Your task to perform on an android device: open app "Yahoo Mail" Image 0: 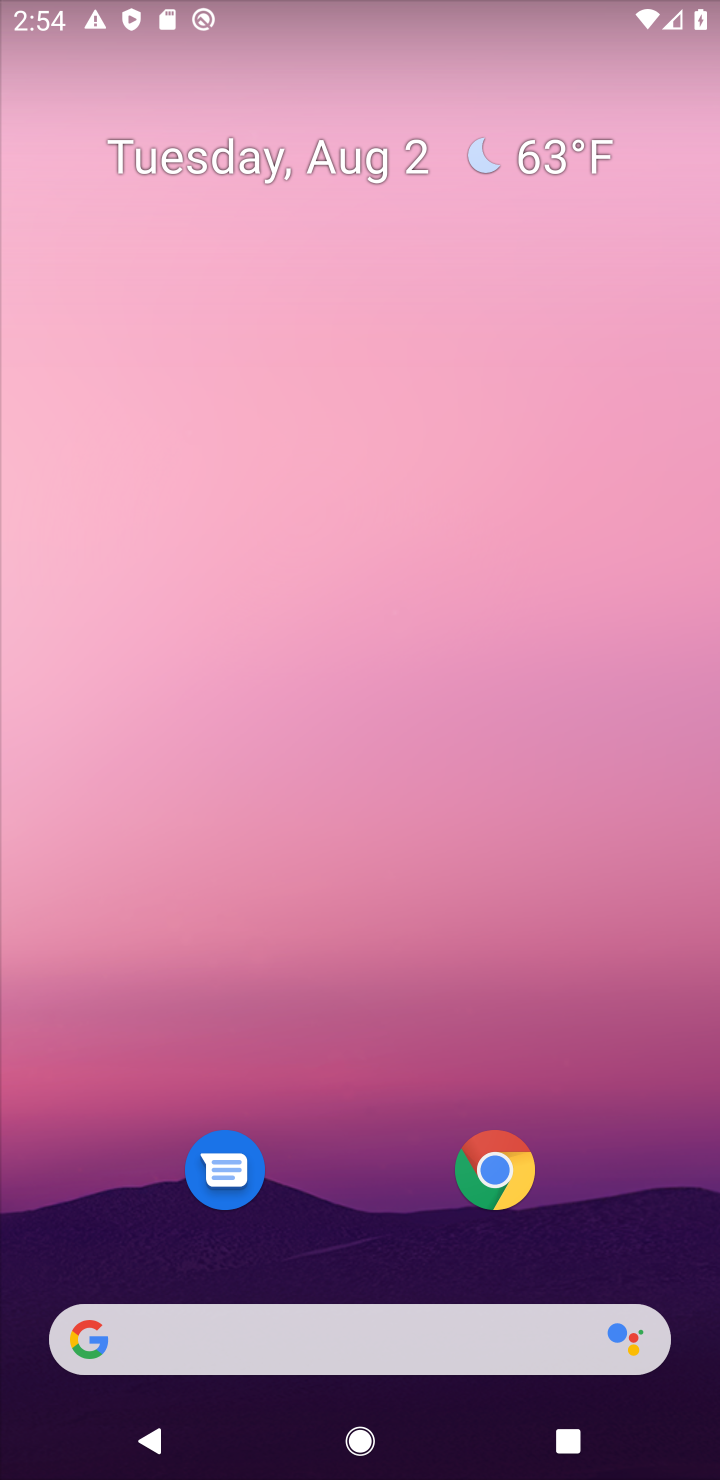
Step 0: drag from (453, 1141) to (311, 537)
Your task to perform on an android device: open app "Yahoo Mail" Image 1: 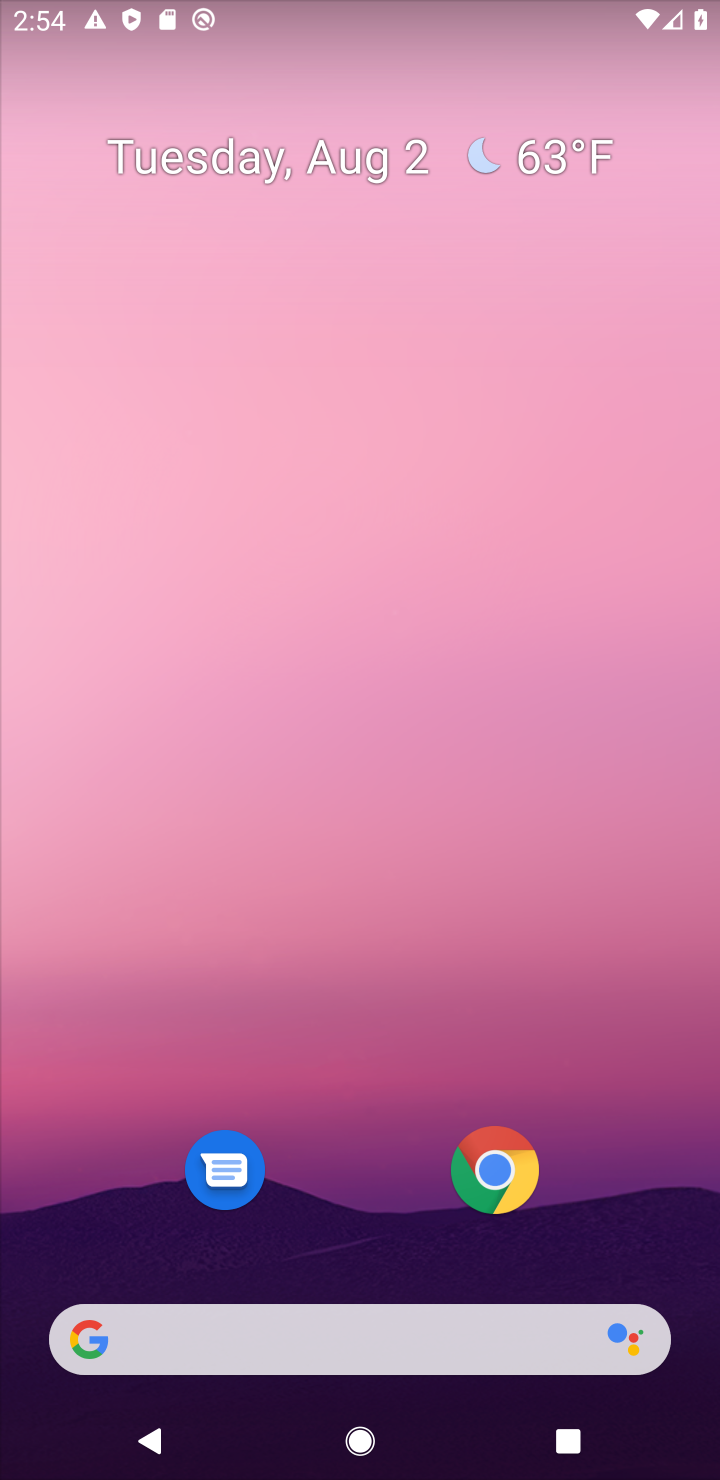
Step 1: click (321, 574)
Your task to perform on an android device: open app "Yahoo Mail" Image 2: 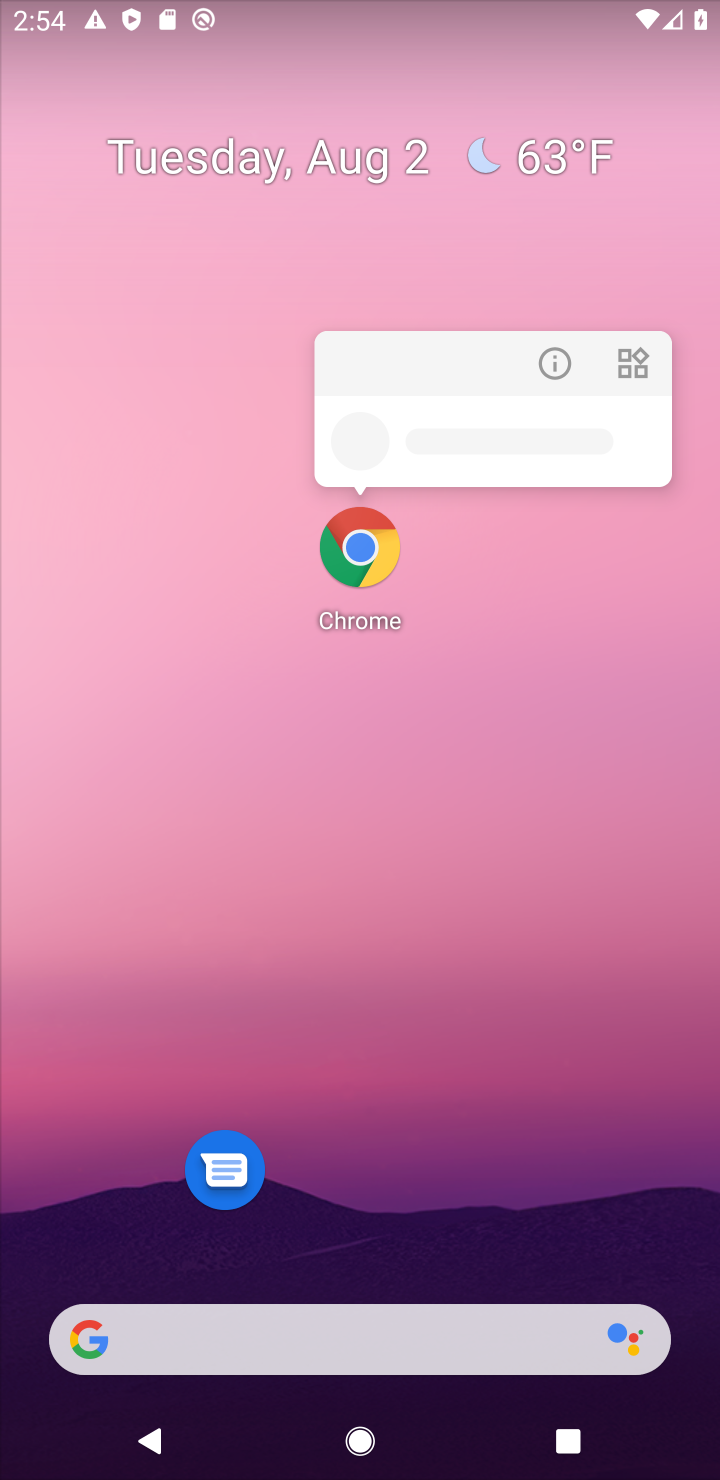
Step 2: click (283, 554)
Your task to perform on an android device: open app "Yahoo Mail" Image 3: 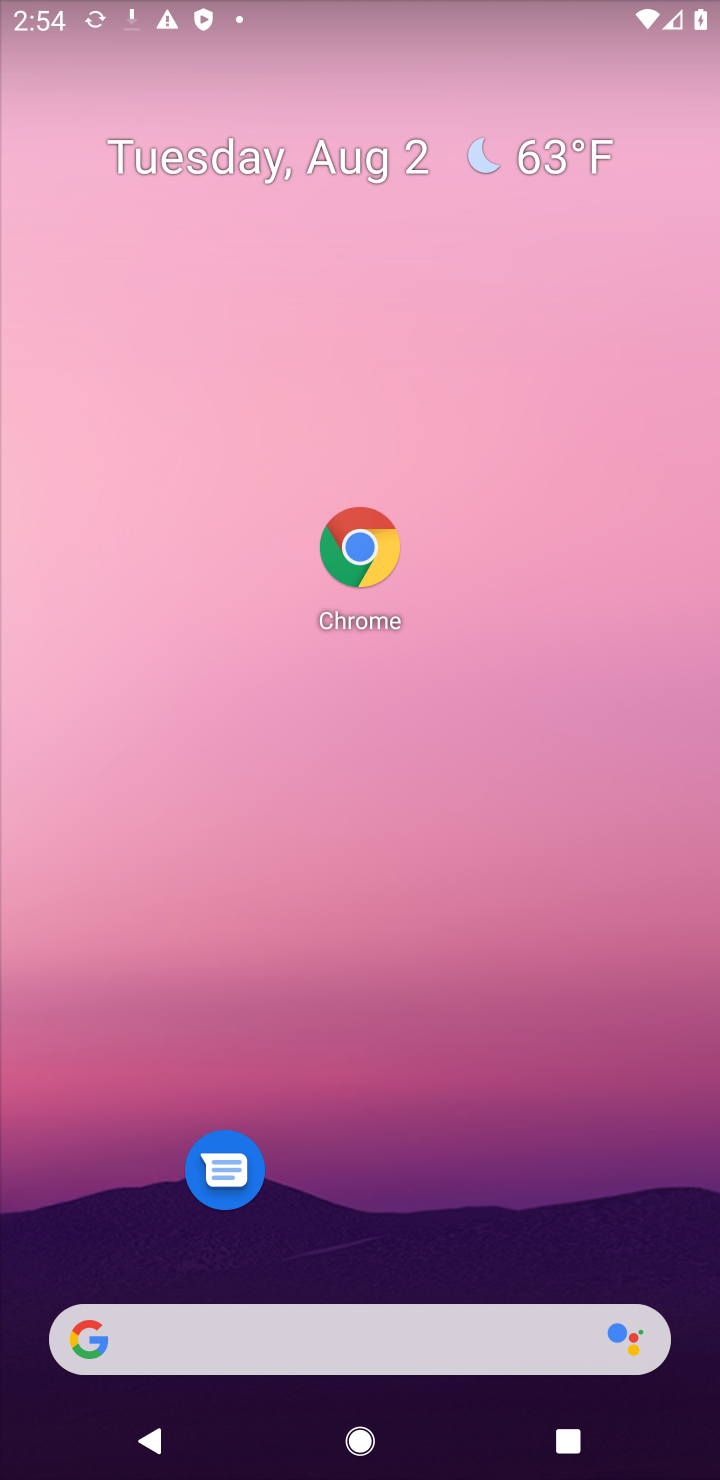
Step 3: click (407, 381)
Your task to perform on an android device: open app "Yahoo Mail" Image 4: 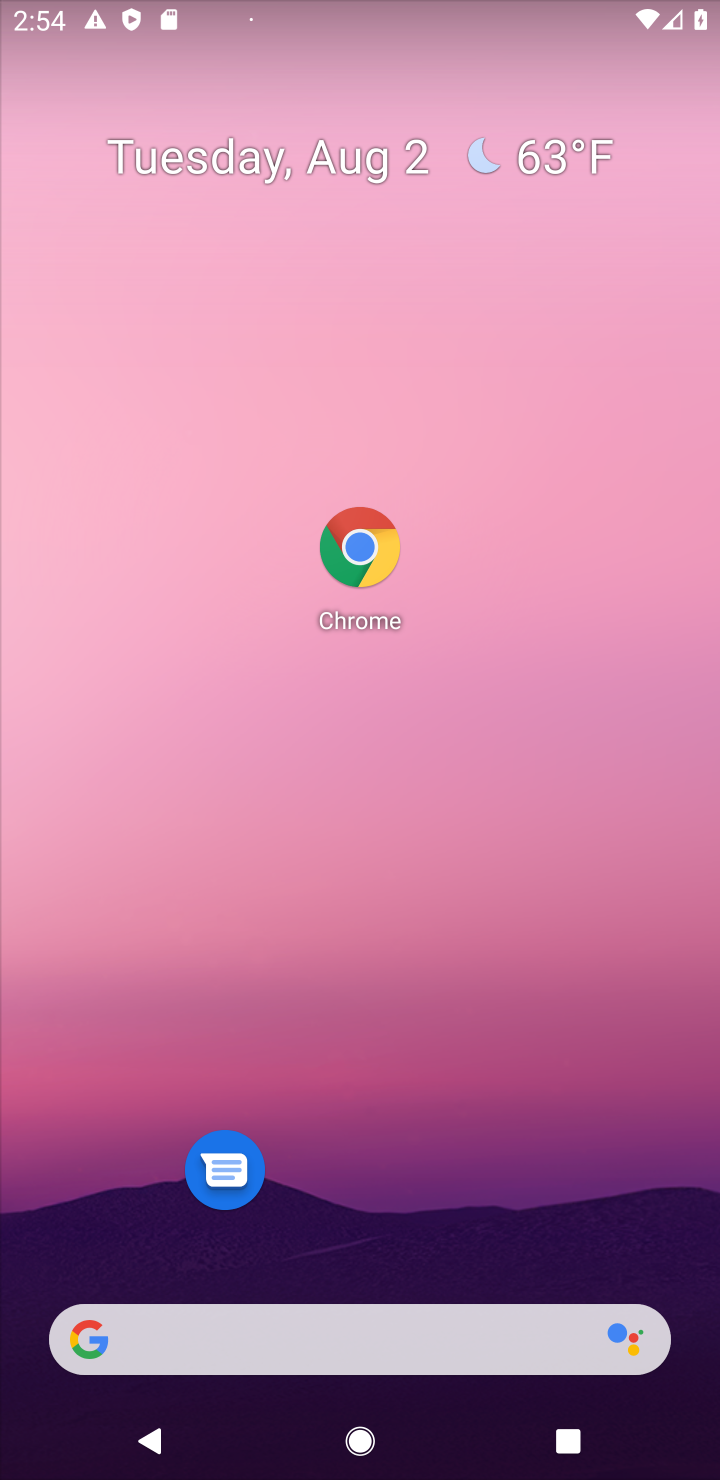
Step 4: drag from (267, 852) to (359, 331)
Your task to perform on an android device: open app "Yahoo Mail" Image 5: 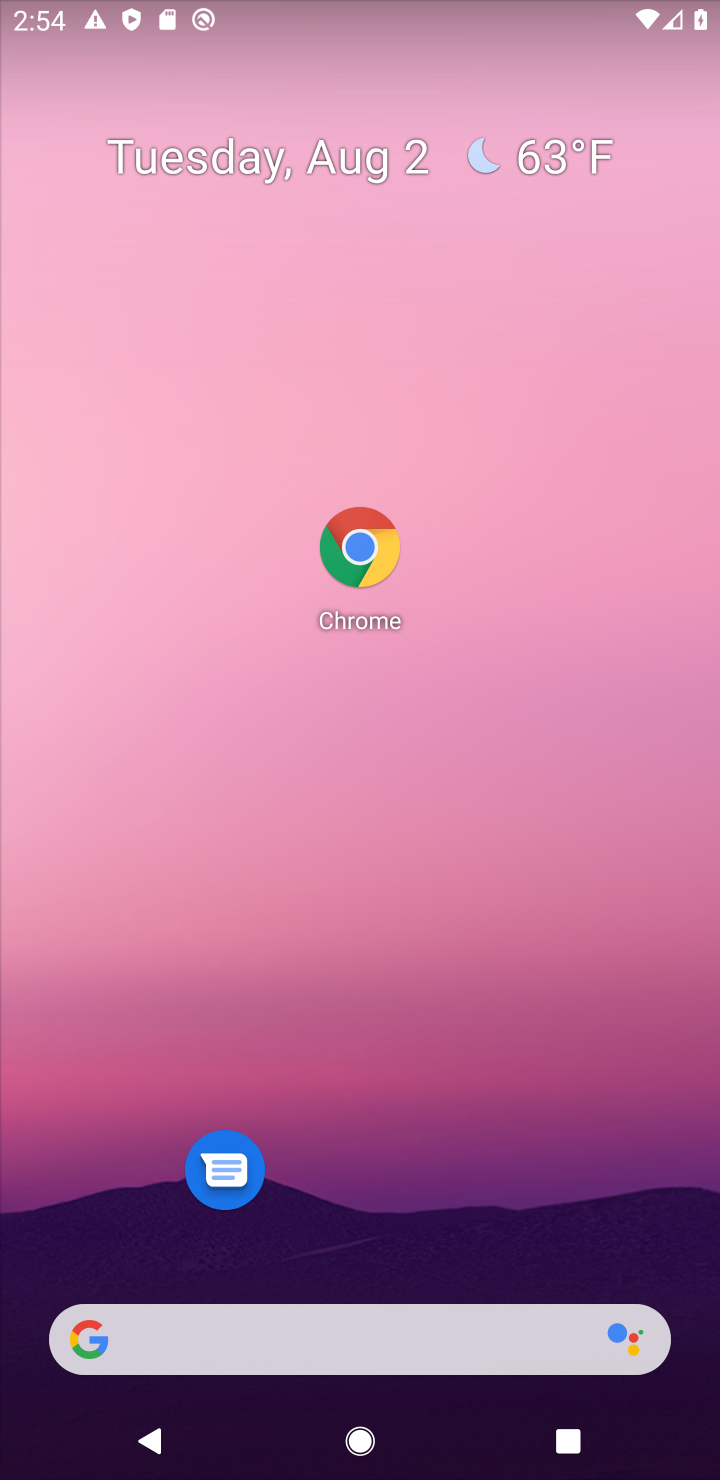
Step 5: drag from (338, 297) to (342, 507)
Your task to perform on an android device: open app "Yahoo Mail" Image 6: 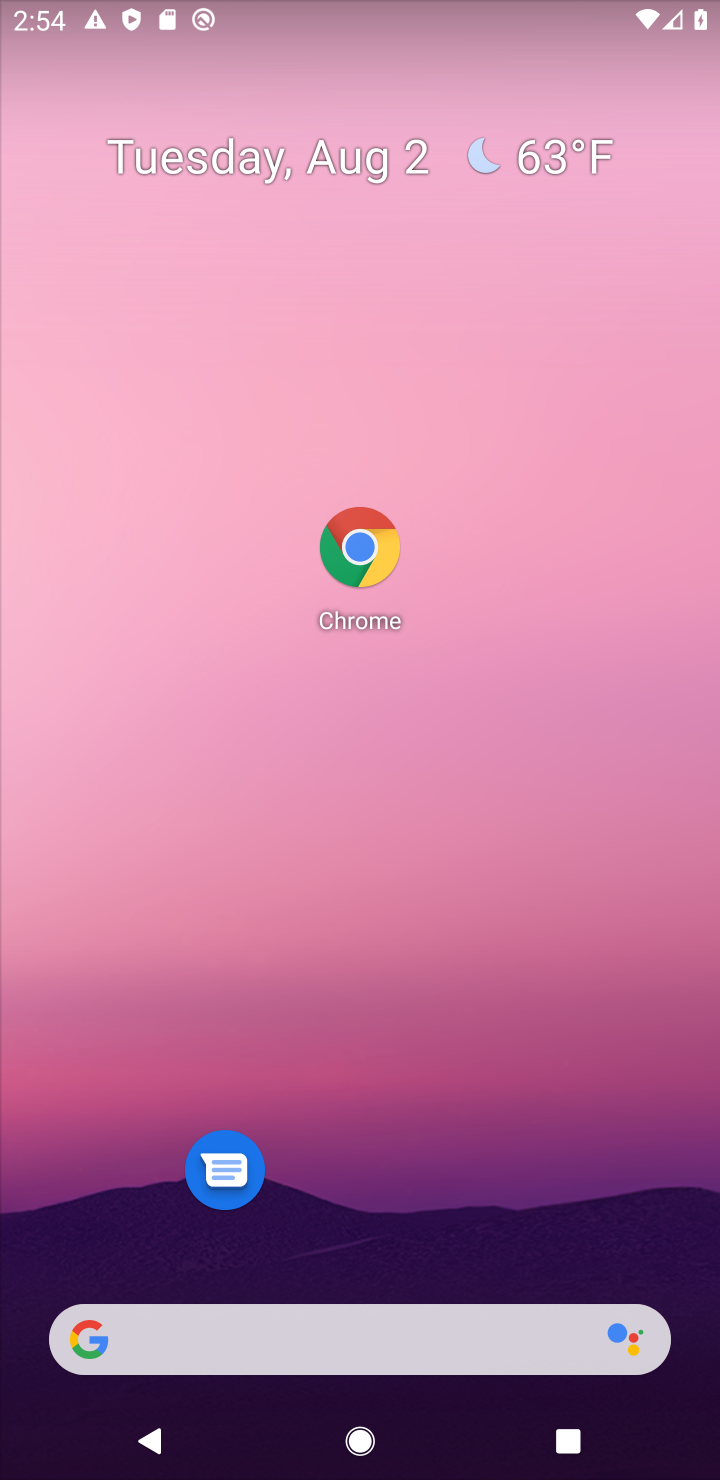
Step 6: drag from (274, 347) to (262, 651)
Your task to perform on an android device: open app "Yahoo Mail" Image 7: 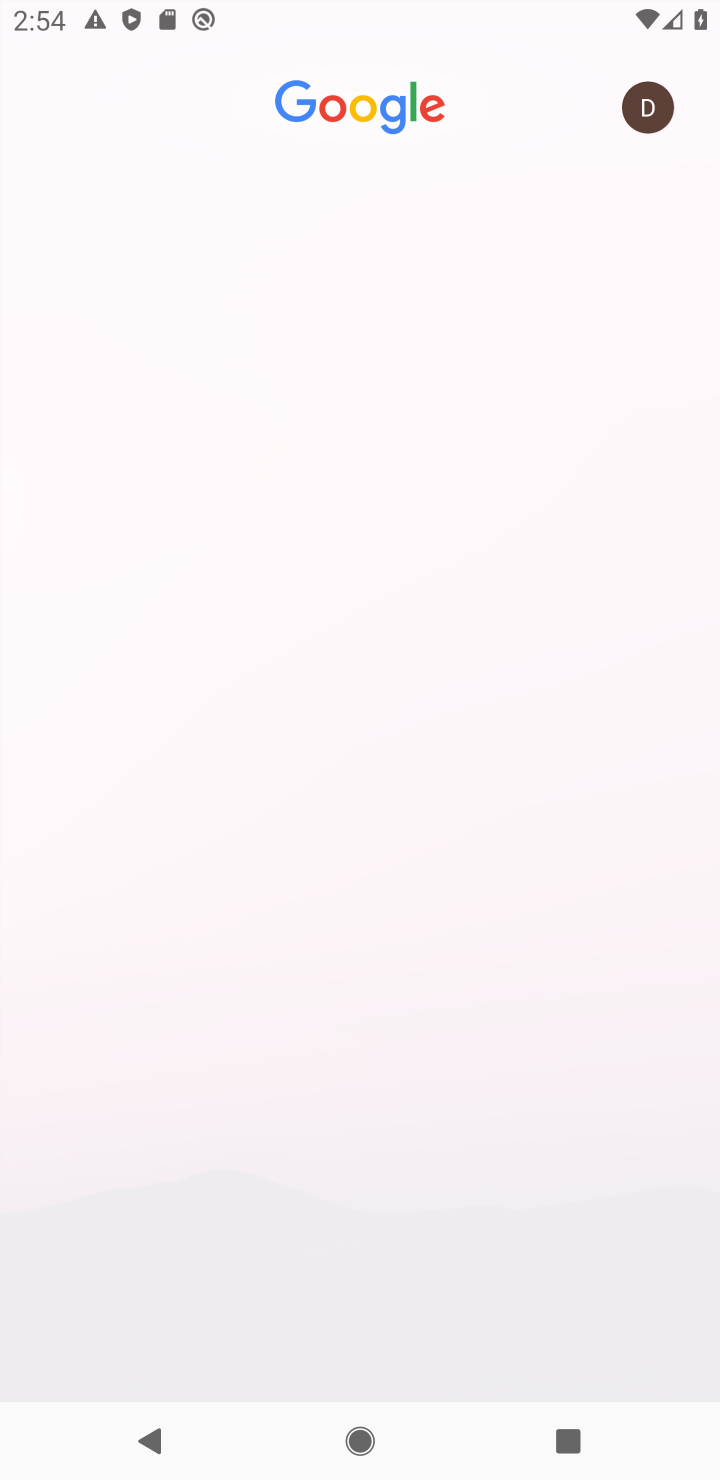
Step 7: click (281, 512)
Your task to perform on an android device: open app "Yahoo Mail" Image 8: 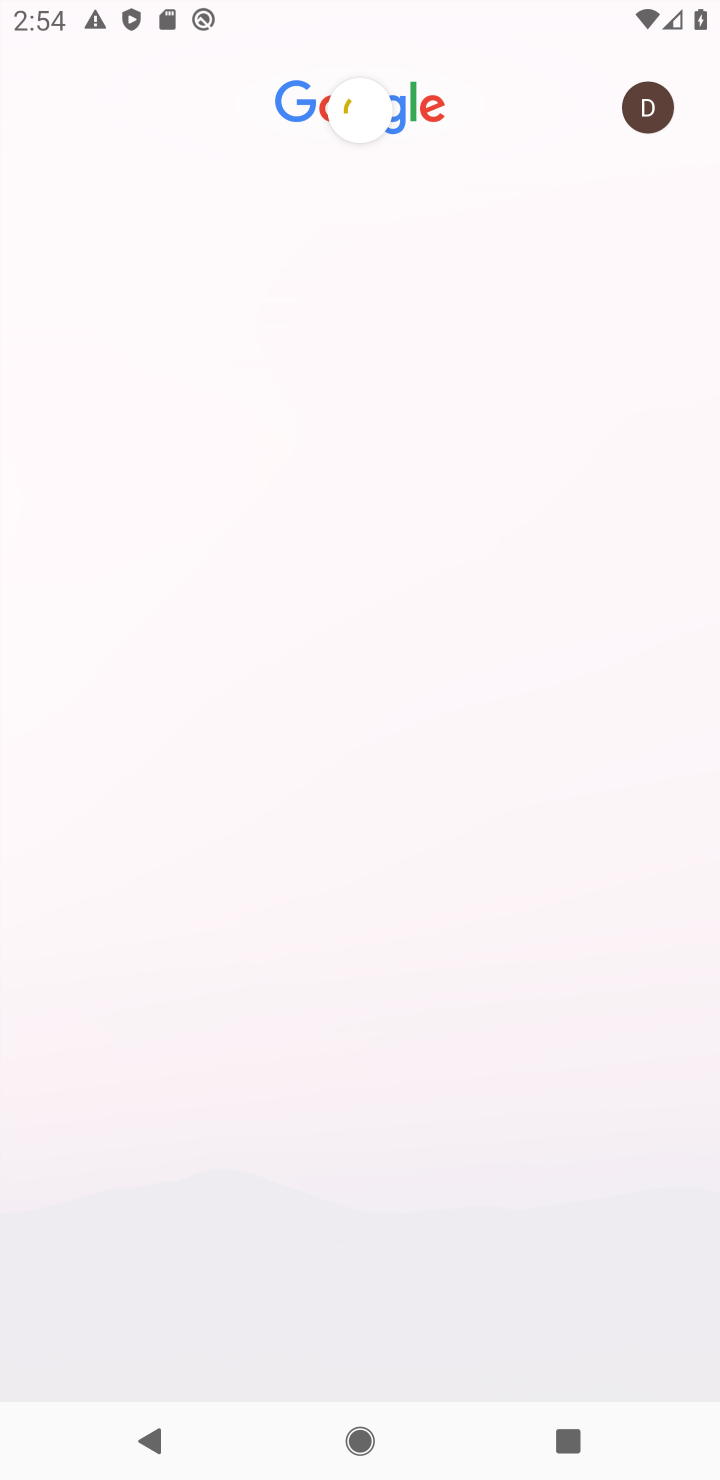
Step 8: press back button
Your task to perform on an android device: open app "Yahoo Mail" Image 9: 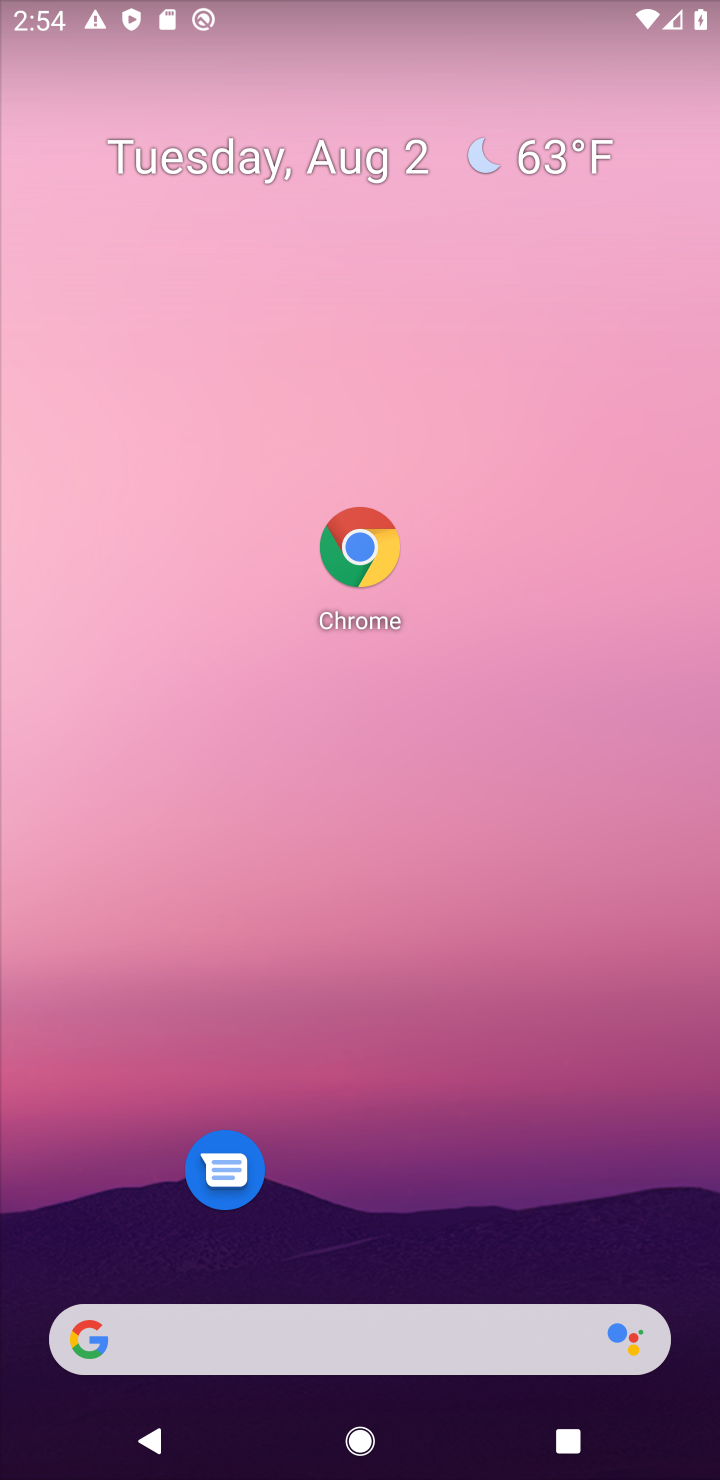
Step 9: drag from (287, 952) to (268, 387)
Your task to perform on an android device: open app "Yahoo Mail" Image 10: 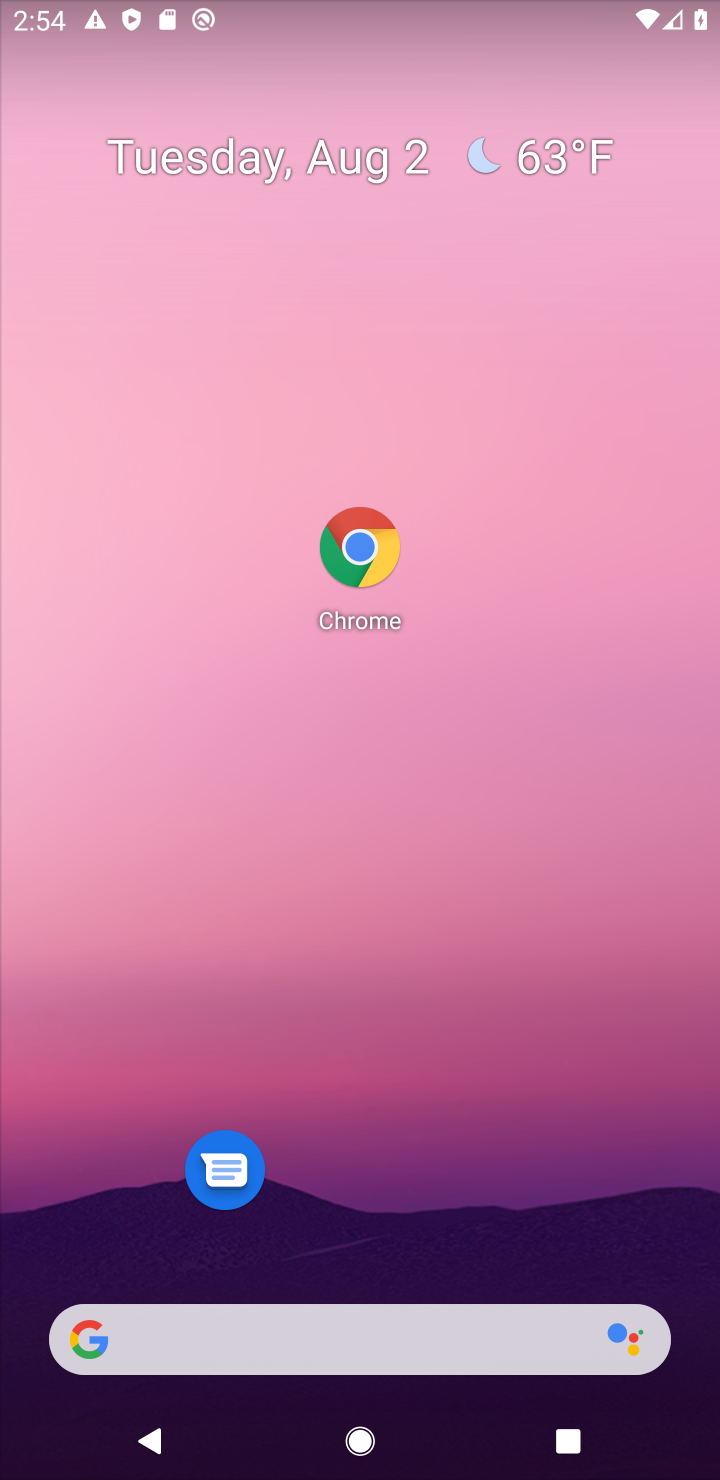
Step 10: drag from (317, 679) to (261, 474)
Your task to perform on an android device: open app "Yahoo Mail" Image 11: 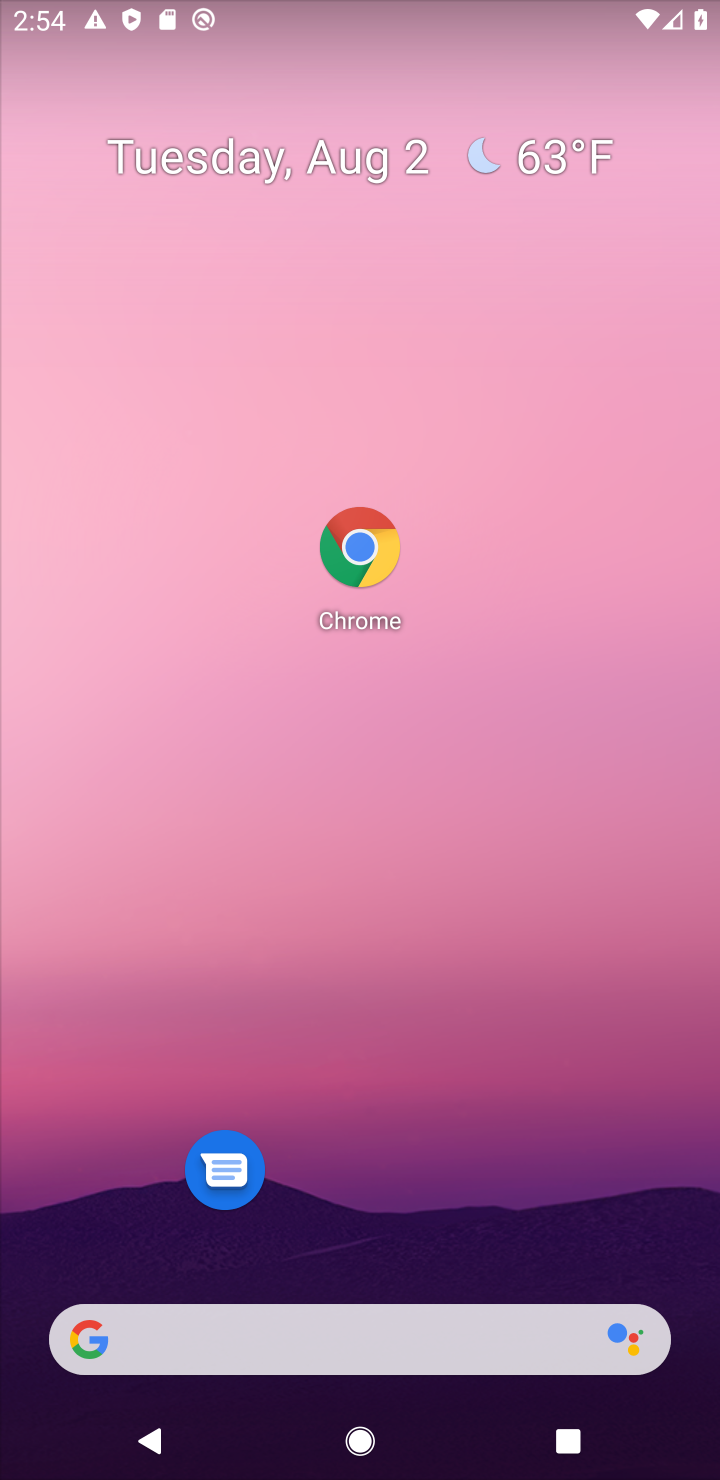
Step 11: drag from (420, 439) to (278, 285)
Your task to perform on an android device: open app "Yahoo Mail" Image 12: 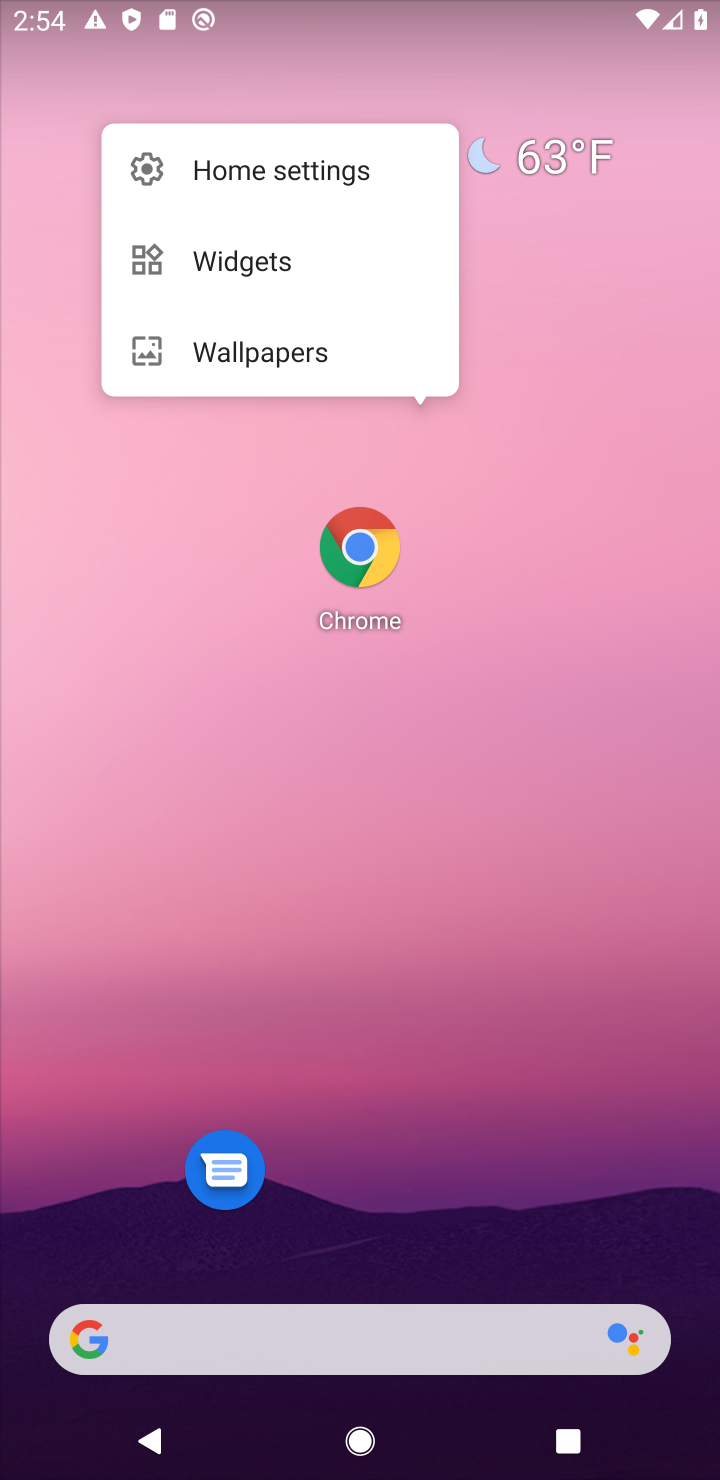
Step 12: drag from (451, 759) to (252, 220)
Your task to perform on an android device: open app "Yahoo Mail" Image 13: 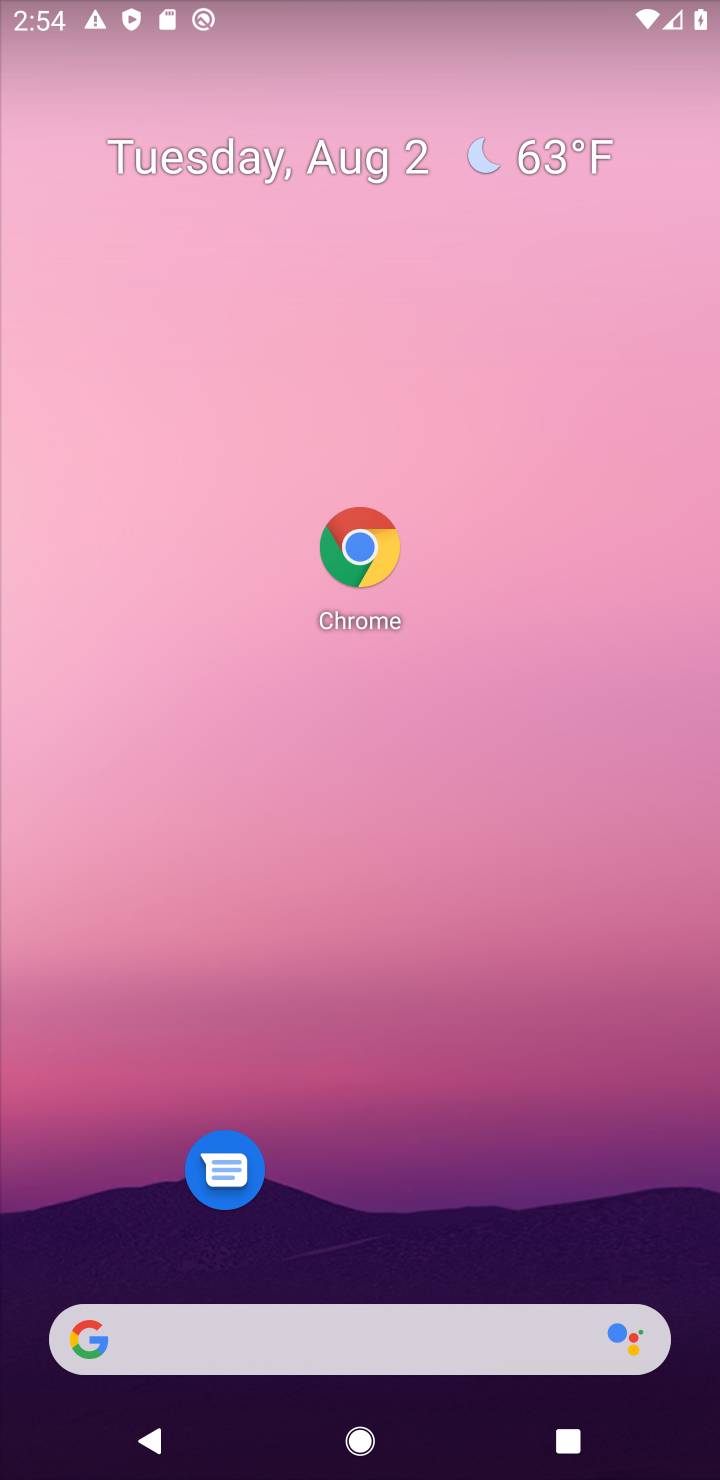
Step 13: drag from (468, 1366) to (204, 57)
Your task to perform on an android device: open app "Yahoo Mail" Image 14: 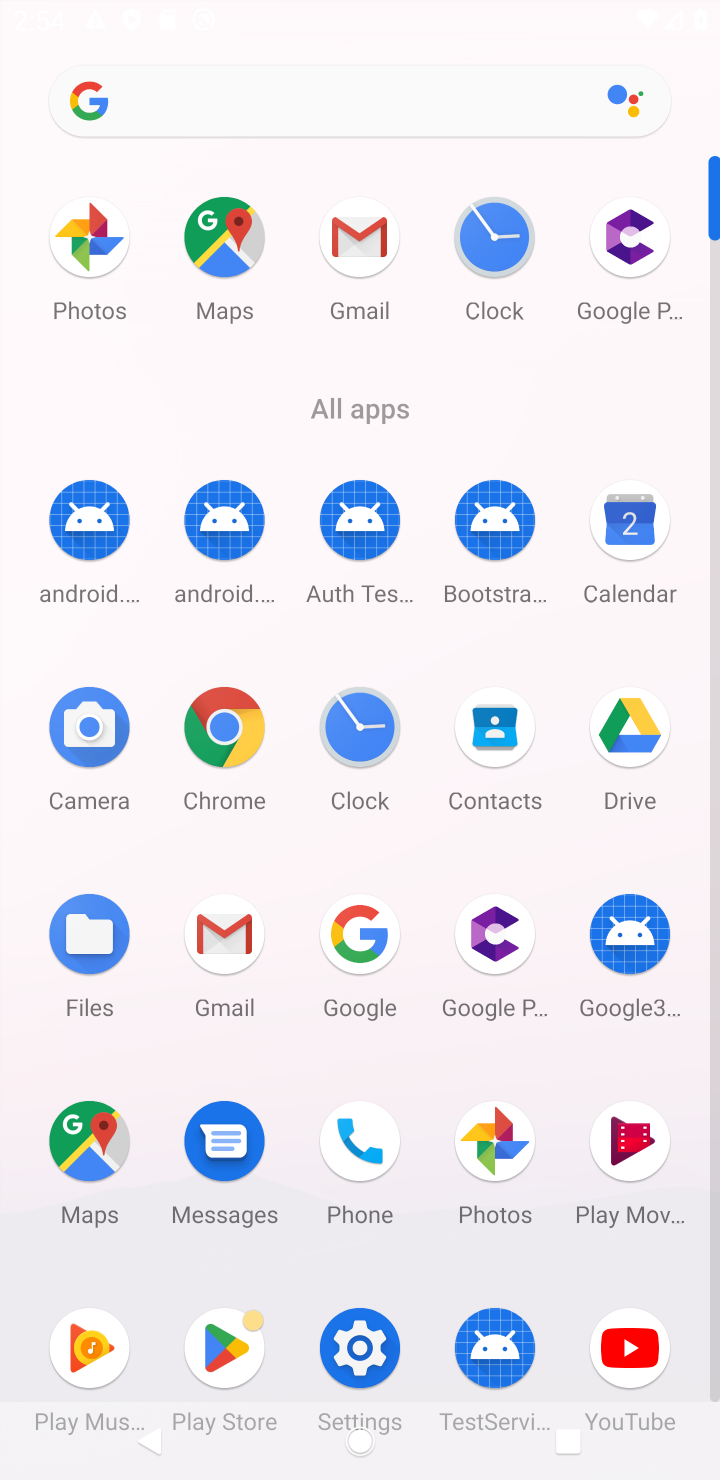
Step 14: drag from (40, 636) to (16, 29)
Your task to perform on an android device: open app "Yahoo Mail" Image 15: 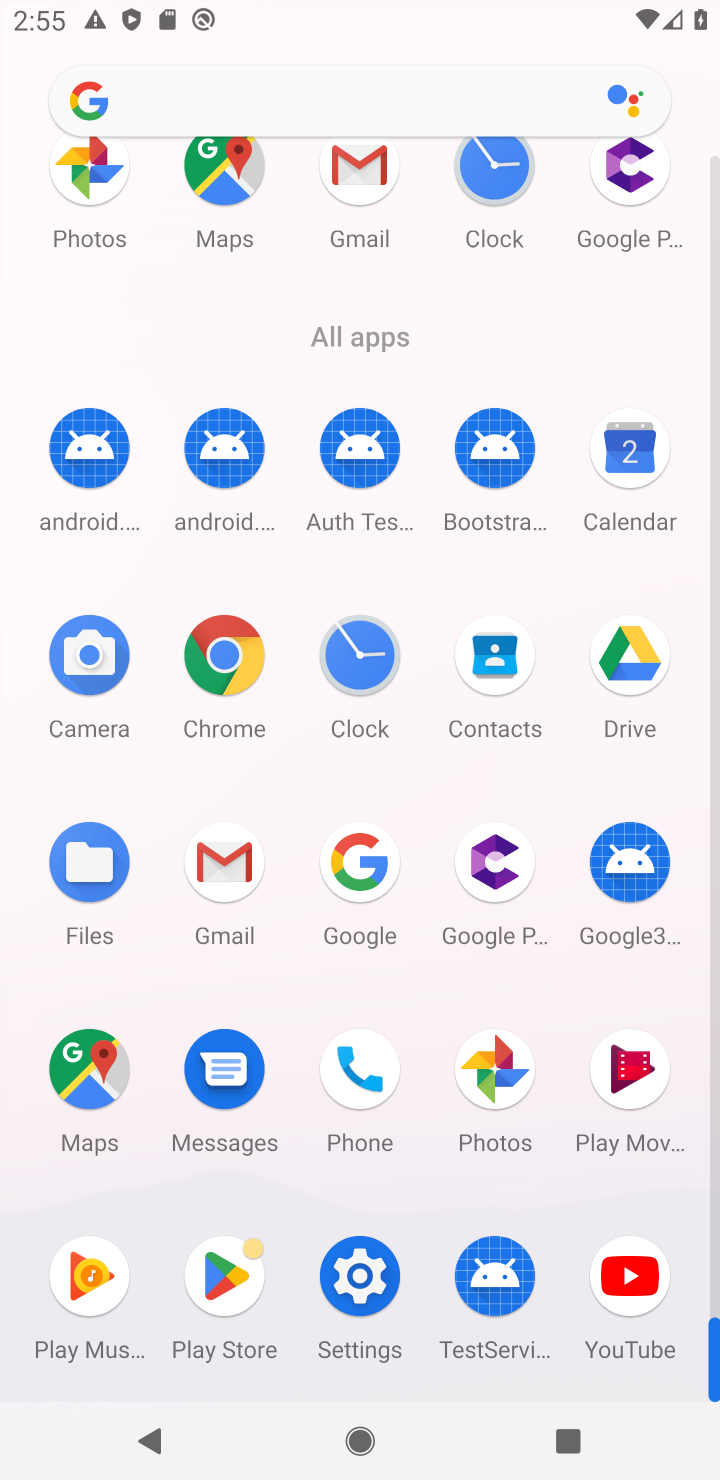
Step 15: click (223, 1280)
Your task to perform on an android device: open app "Yahoo Mail" Image 16: 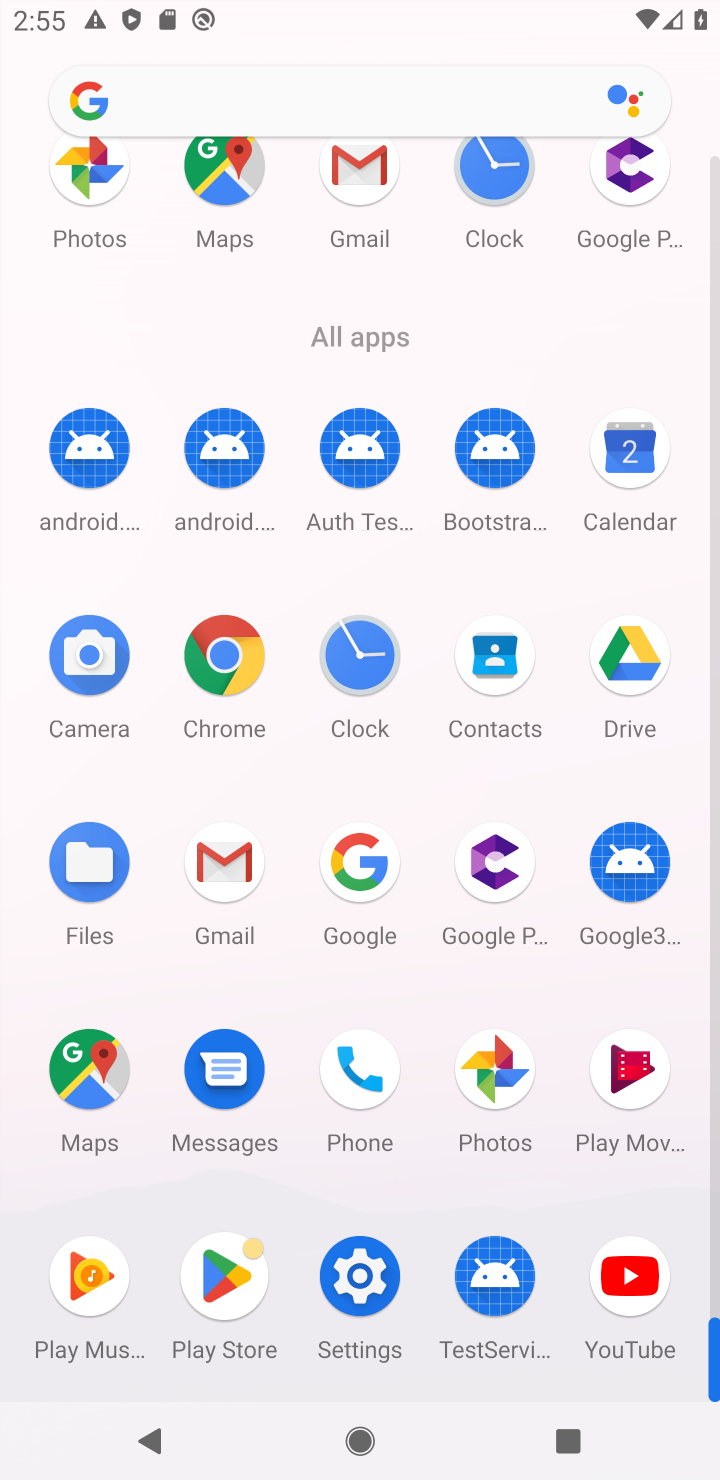
Step 16: click (243, 1284)
Your task to perform on an android device: open app "Yahoo Mail" Image 17: 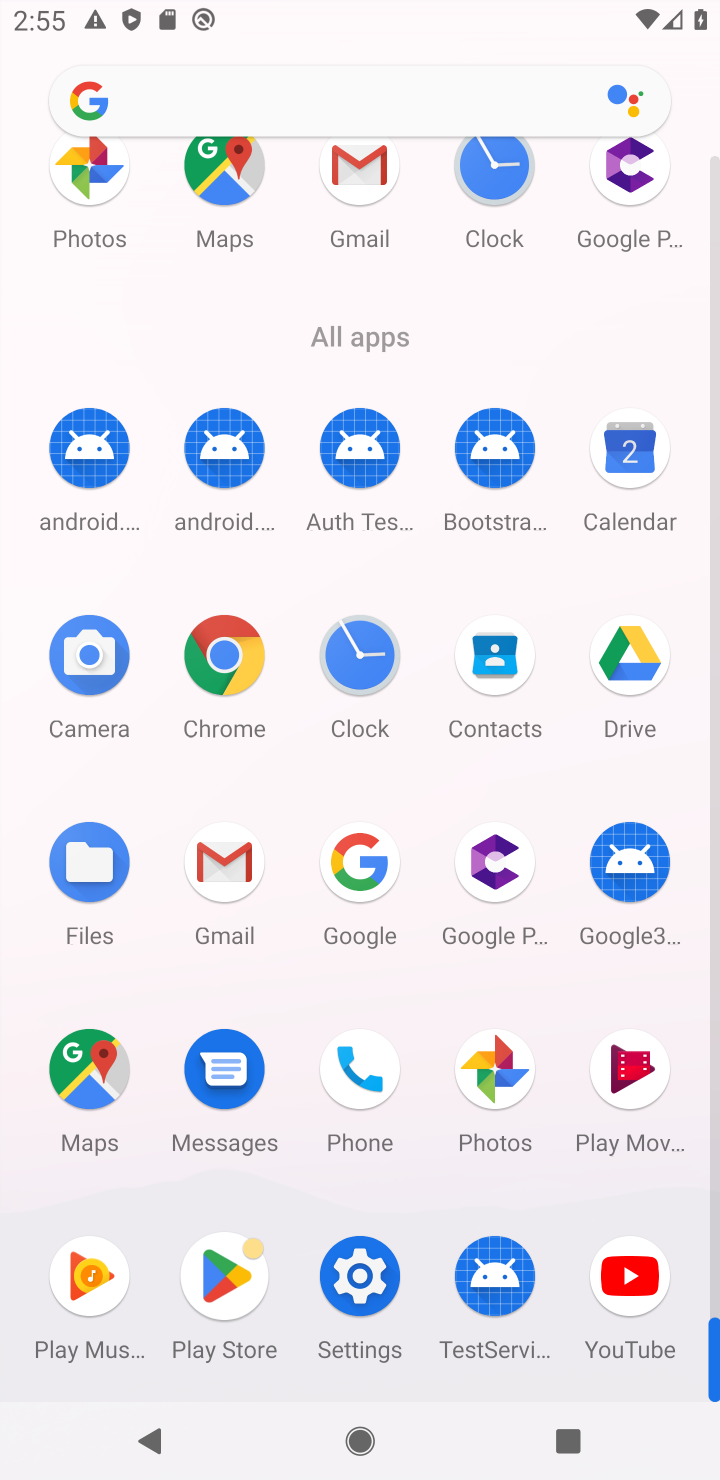
Step 17: click (241, 1297)
Your task to perform on an android device: open app "Yahoo Mail" Image 18: 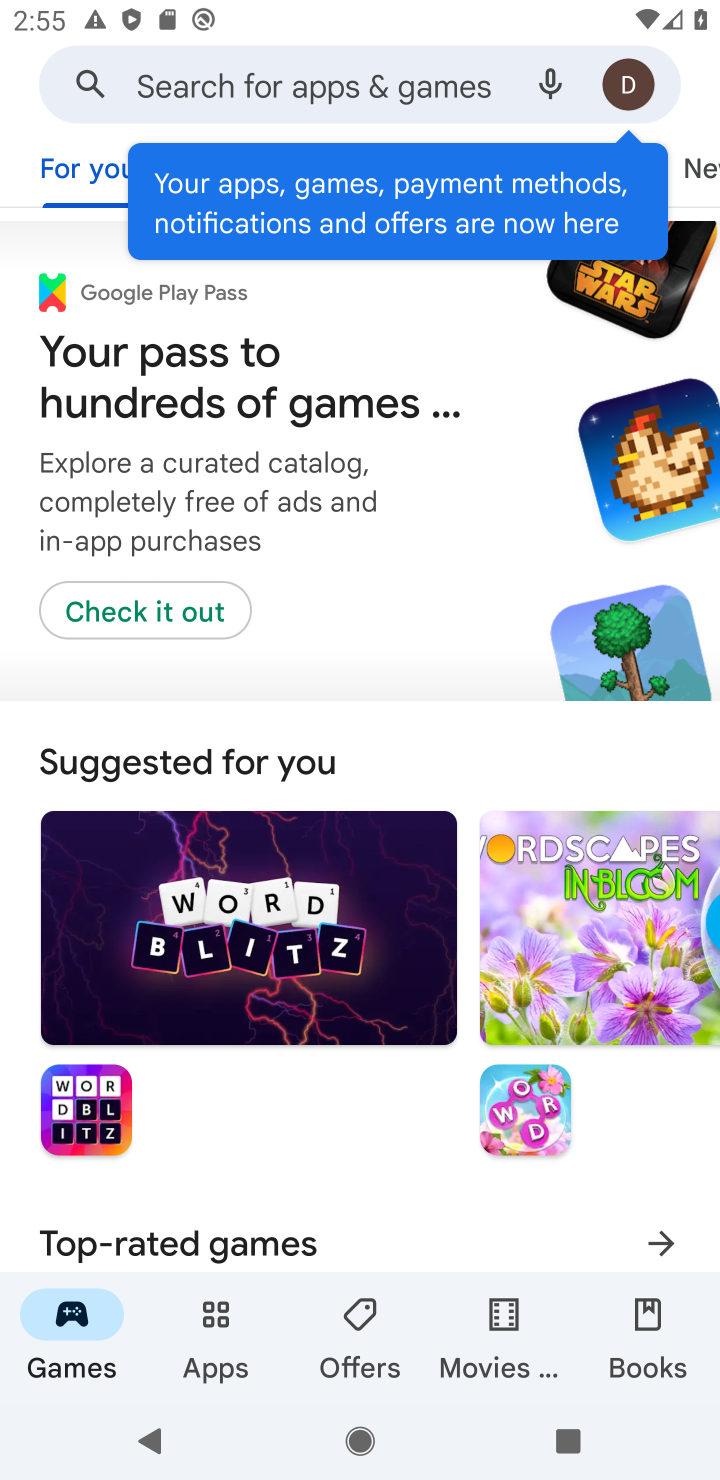
Step 18: click (214, 81)
Your task to perform on an android device: open app "Yahoo Mail" Image 19: 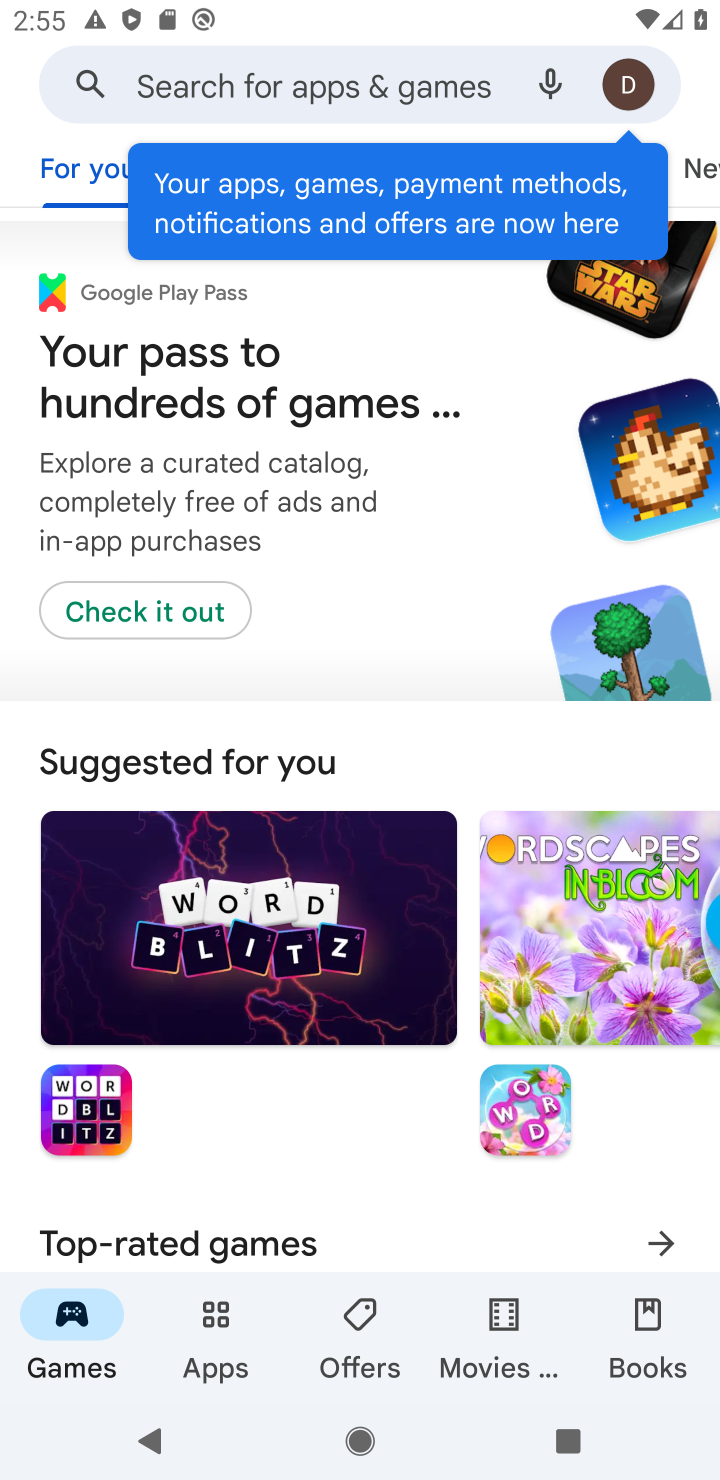
Step 19: click (224, 72)
Your task to perform on an android device: open app "Yahoo Mail" Image 20: 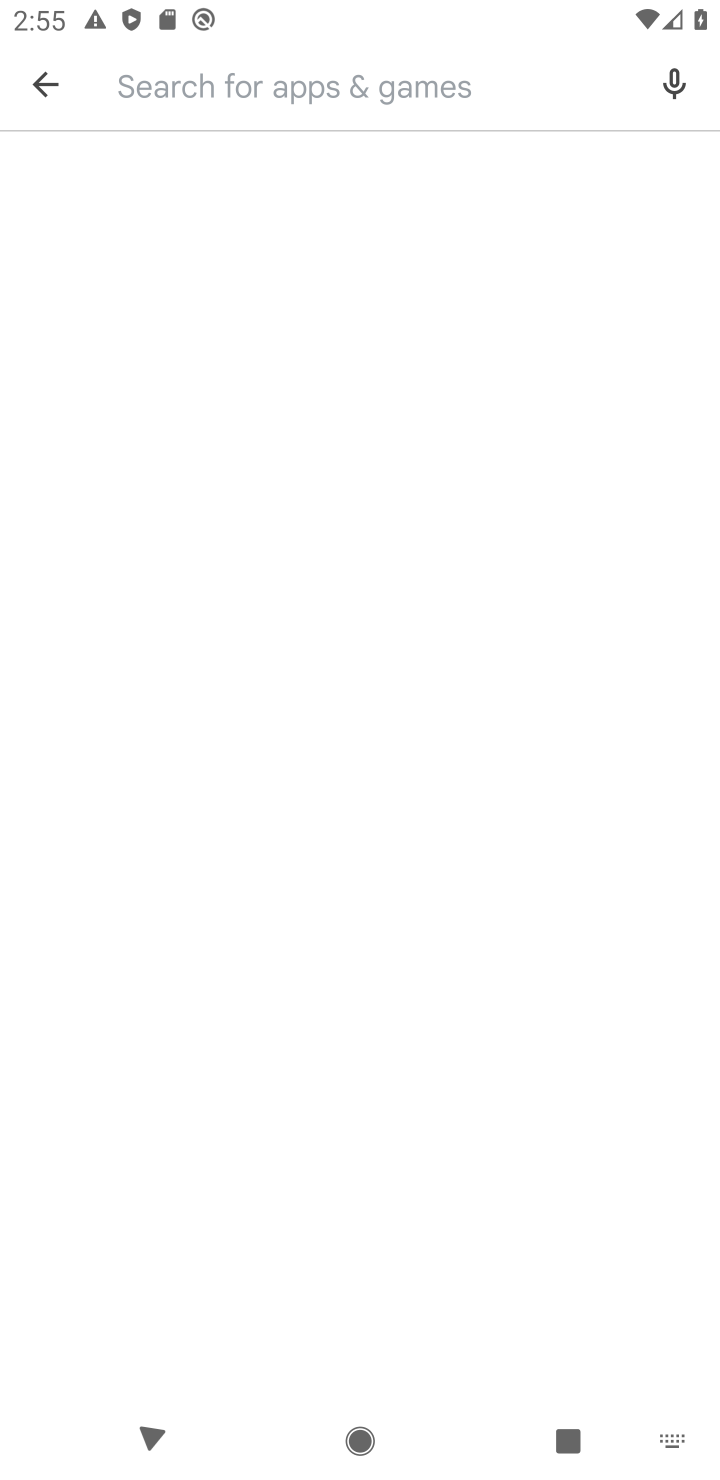
Step 20: click (273, 97)
Your task to perform on an android device: open app "Yahoo Mail" Image 21: 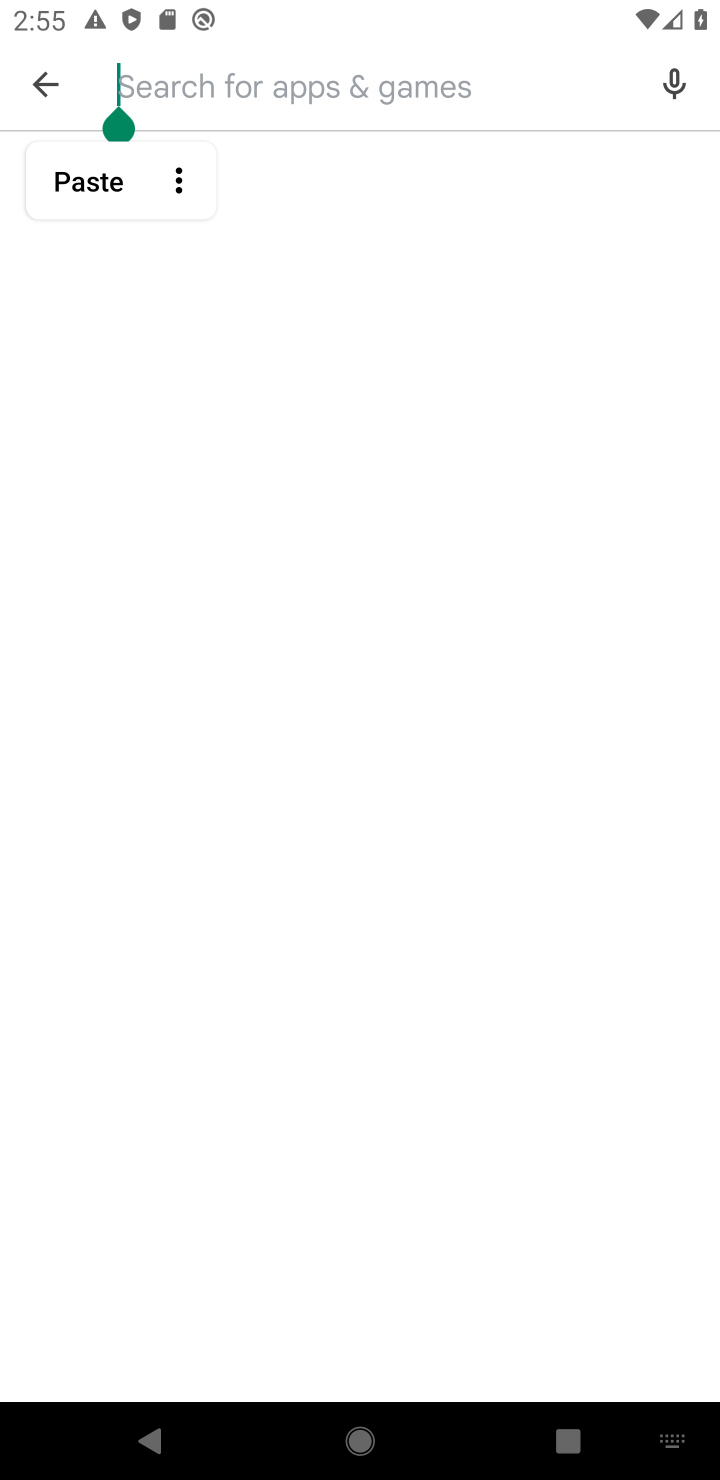
Step 21: type "yahoo"
Your task to perform on an android device: open app "Yahoo Mail" Image 22: 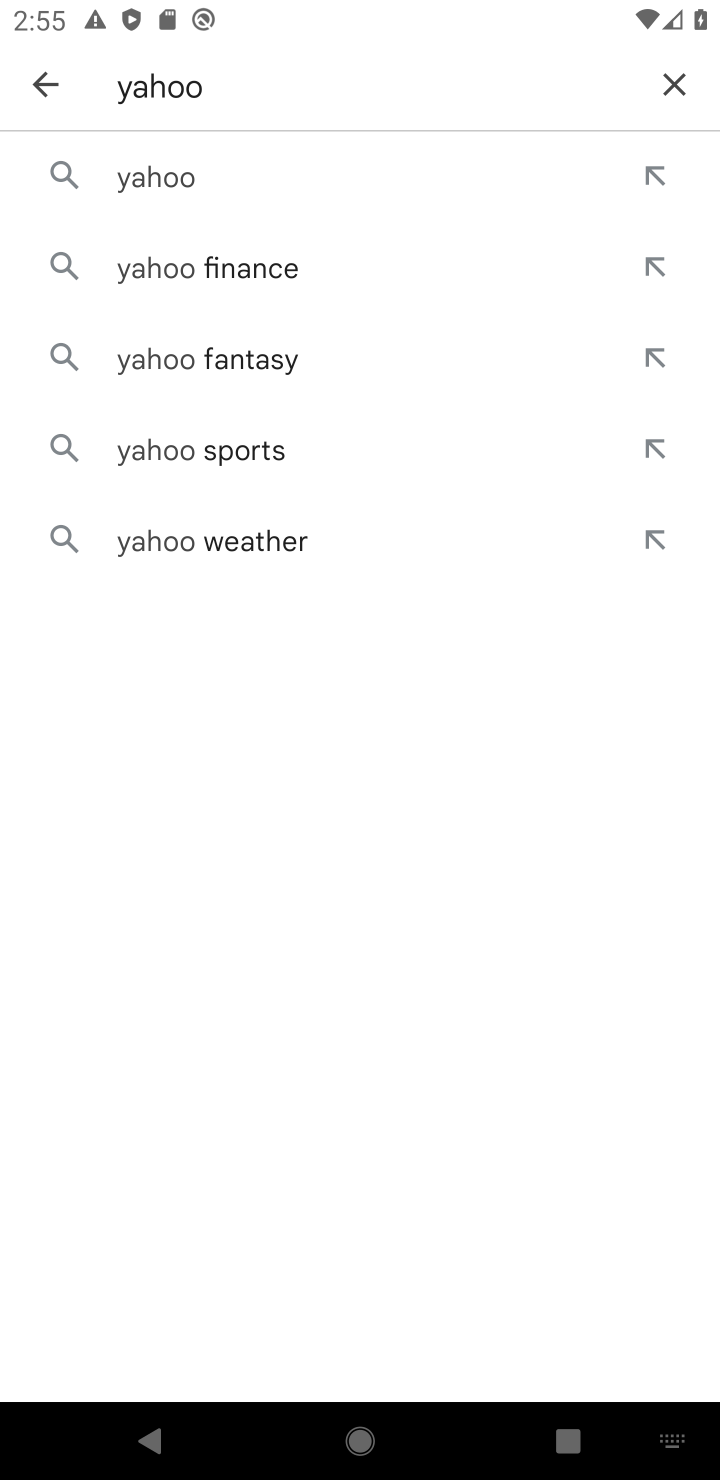
Step 22: click (192, 221)
Your task to perform on an android device: open app "Yahoo Mail" Image 23: 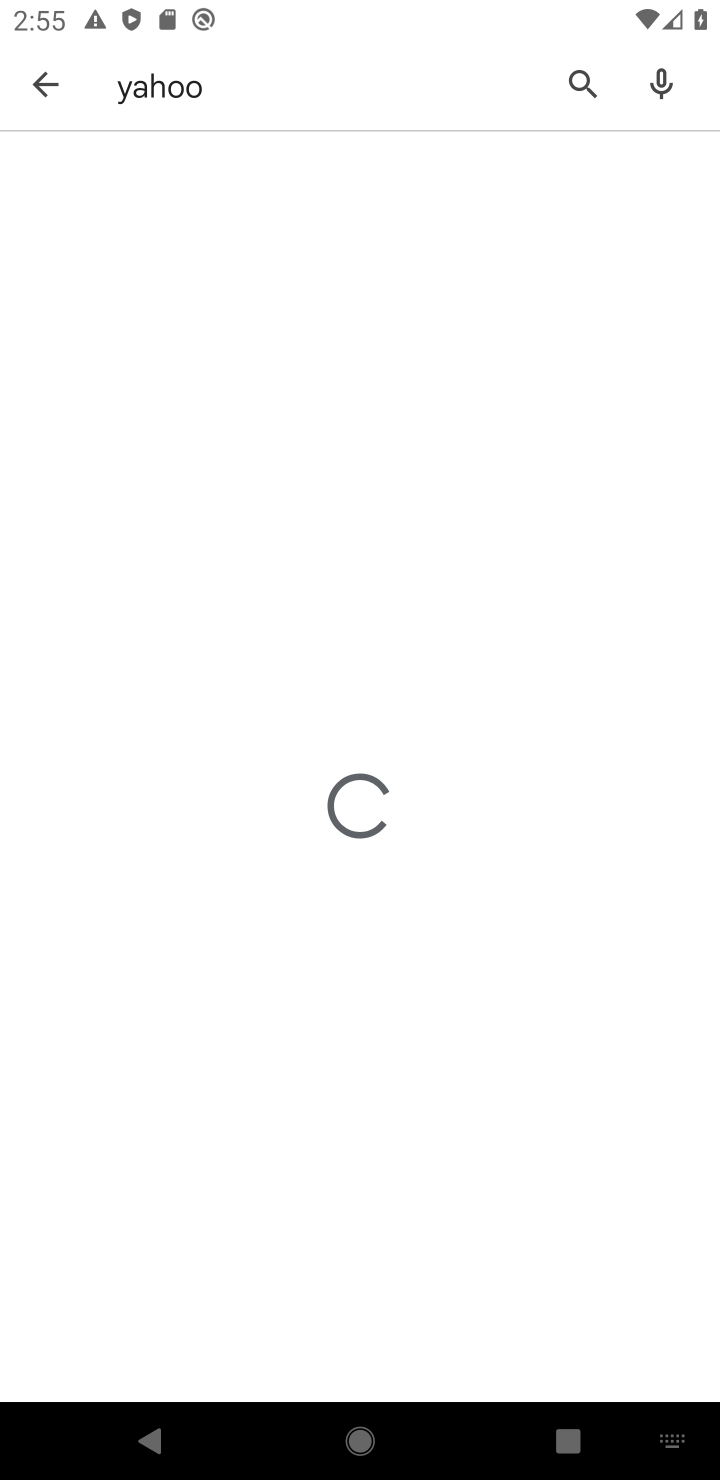
Step 23: click (644, 177)
Your task to perform on an android device: open app "Yahoo Mail" Image 24: 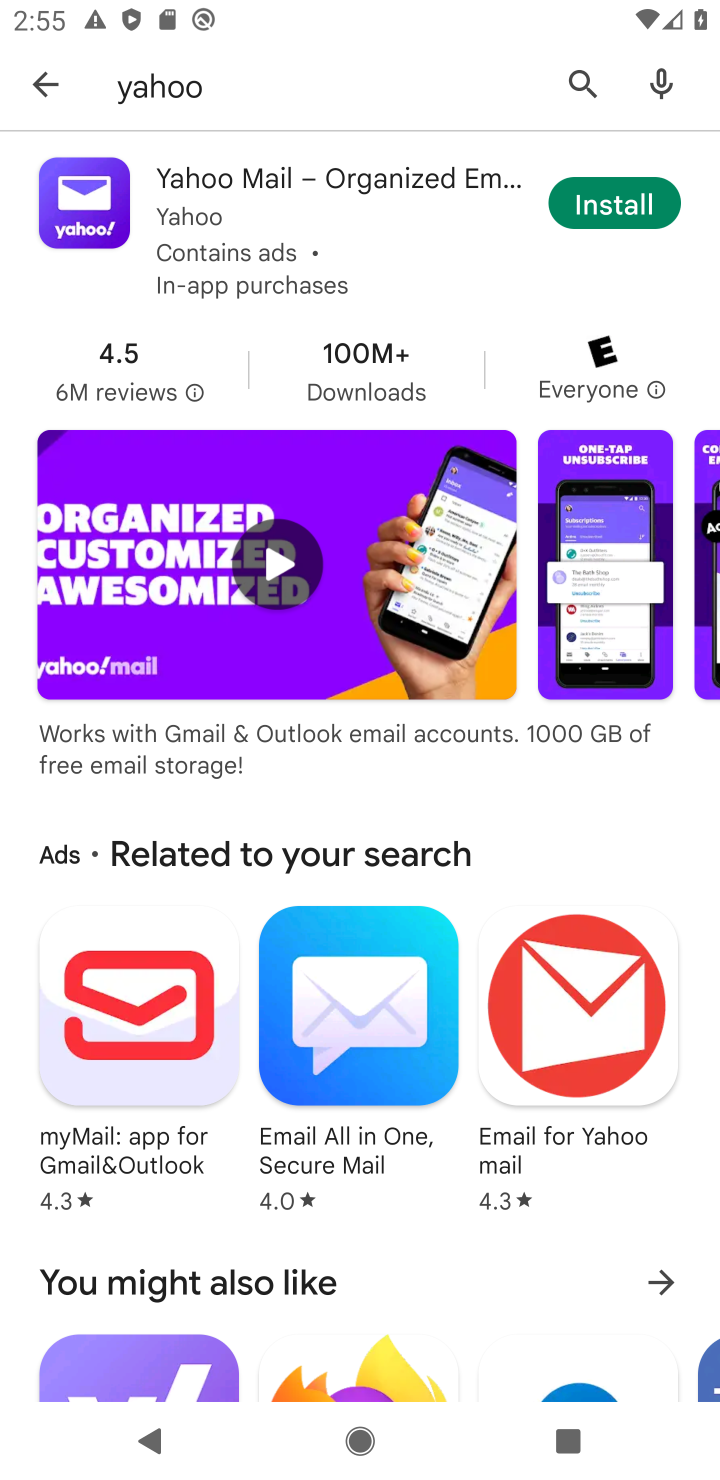
Step 24: click (626, 235)
Your task to perform on an android device: open app "Yahoo Mail" Image 25: 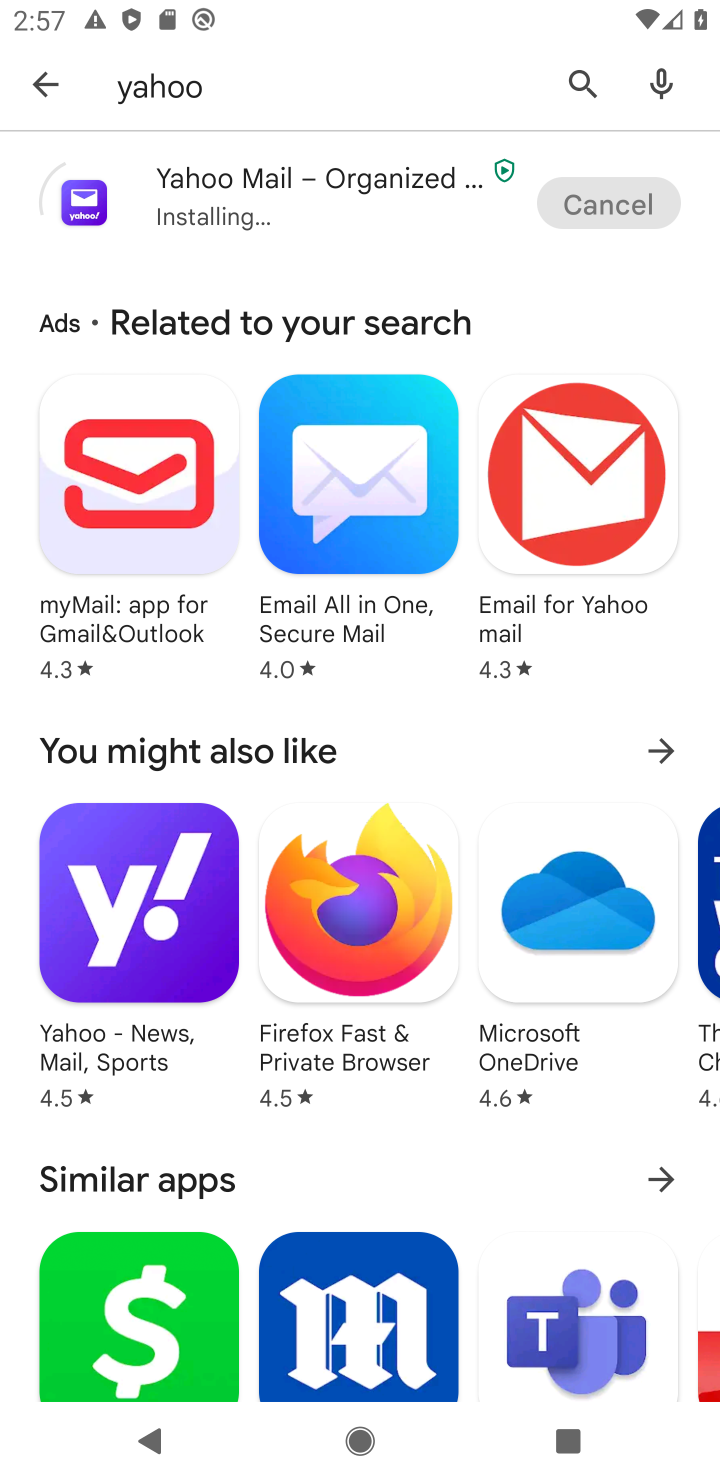
Step 25: click (126, 230)
Your task to perform on an android device: open app "Yahoo Mail" Image 26: 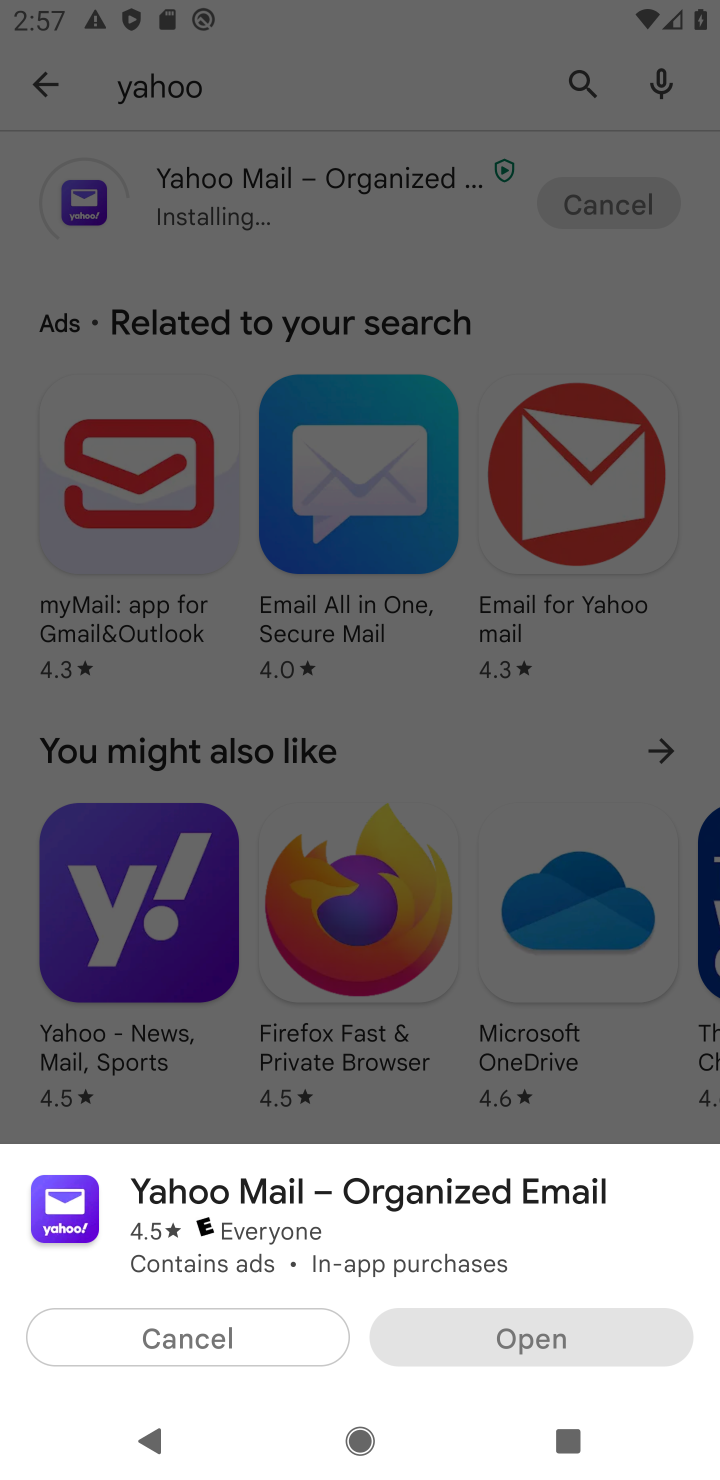
Step 26: click (257, 1340)
Your task to perform on an android device: open app "Yahoo Mail" Image 27: 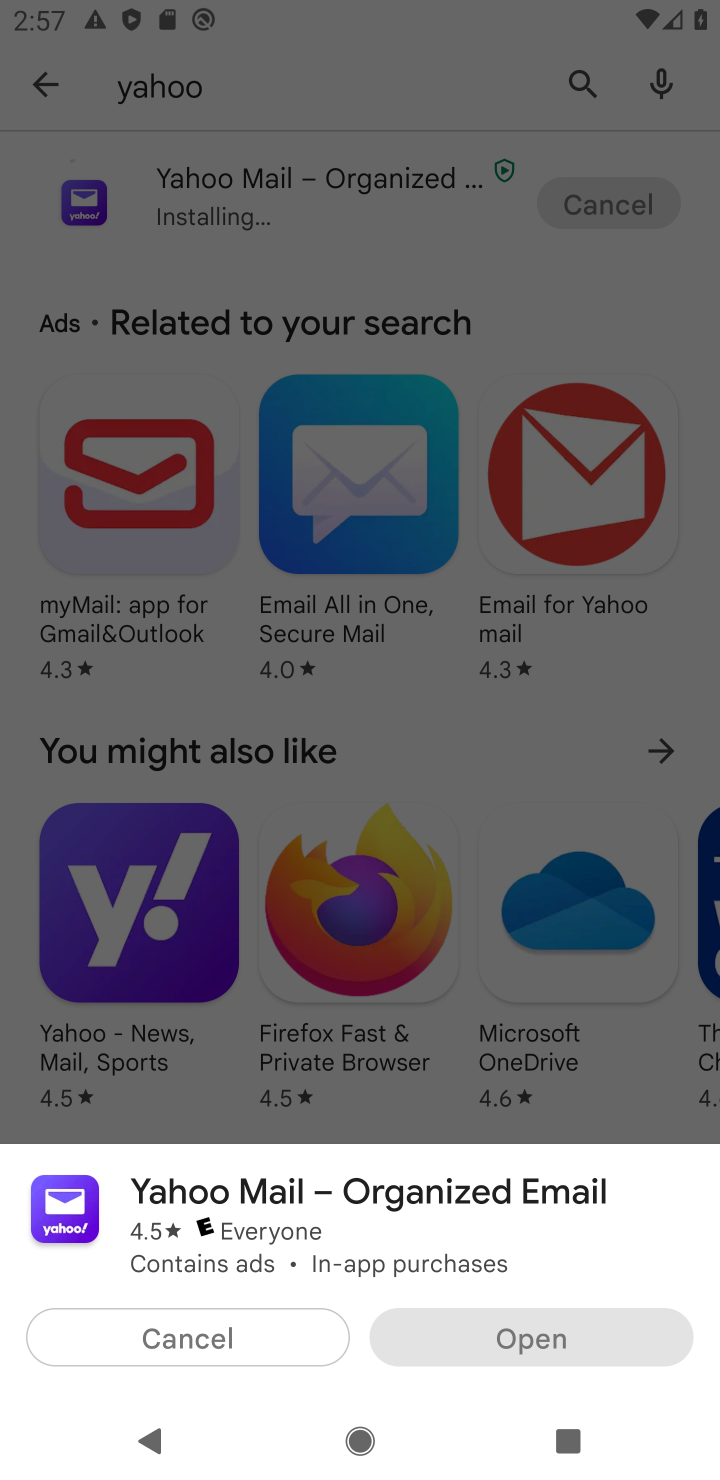
Step 27: click (544, 1327)
Your task to perform on an android device: open app "Yahoo Mail" Image 28: 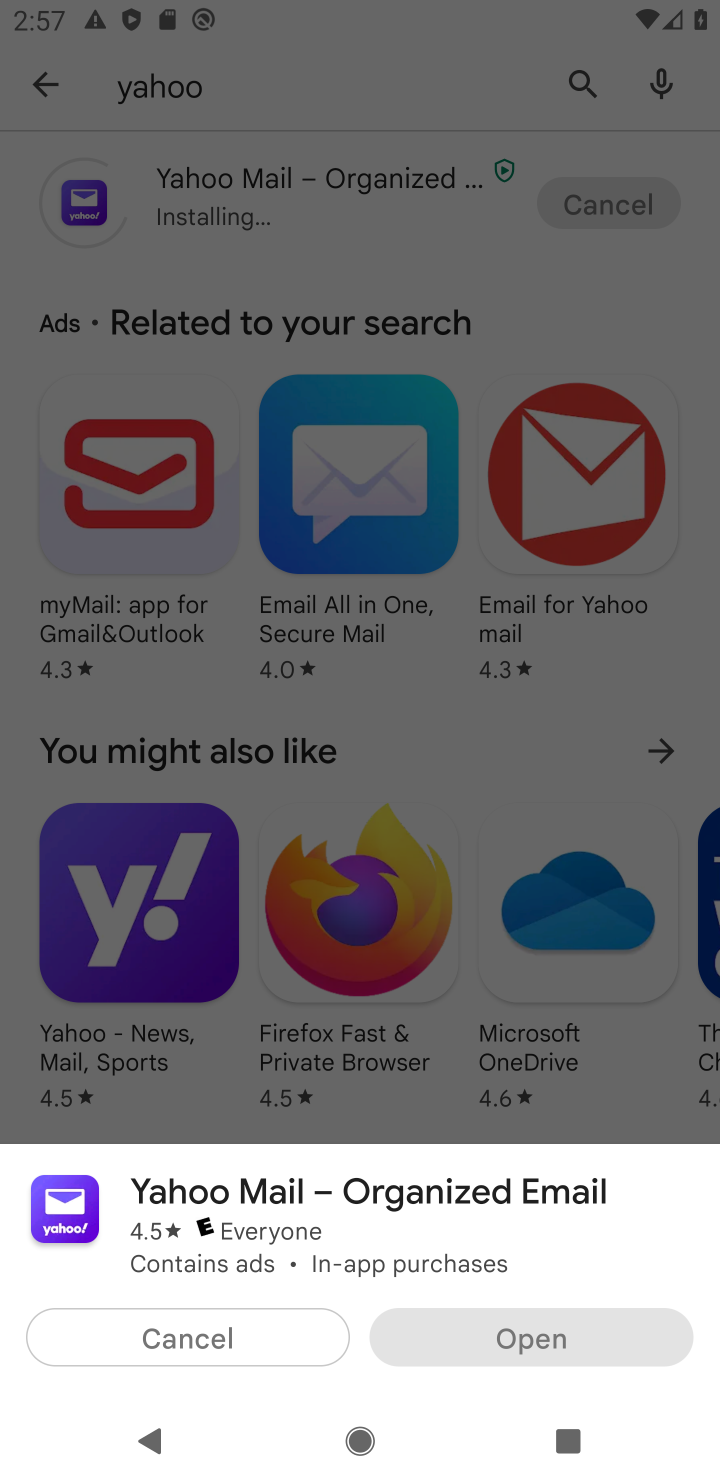
Step 28: click (545, 1325)
Your task to perform on an android device: open app "Yahoo Mail" Image 29: 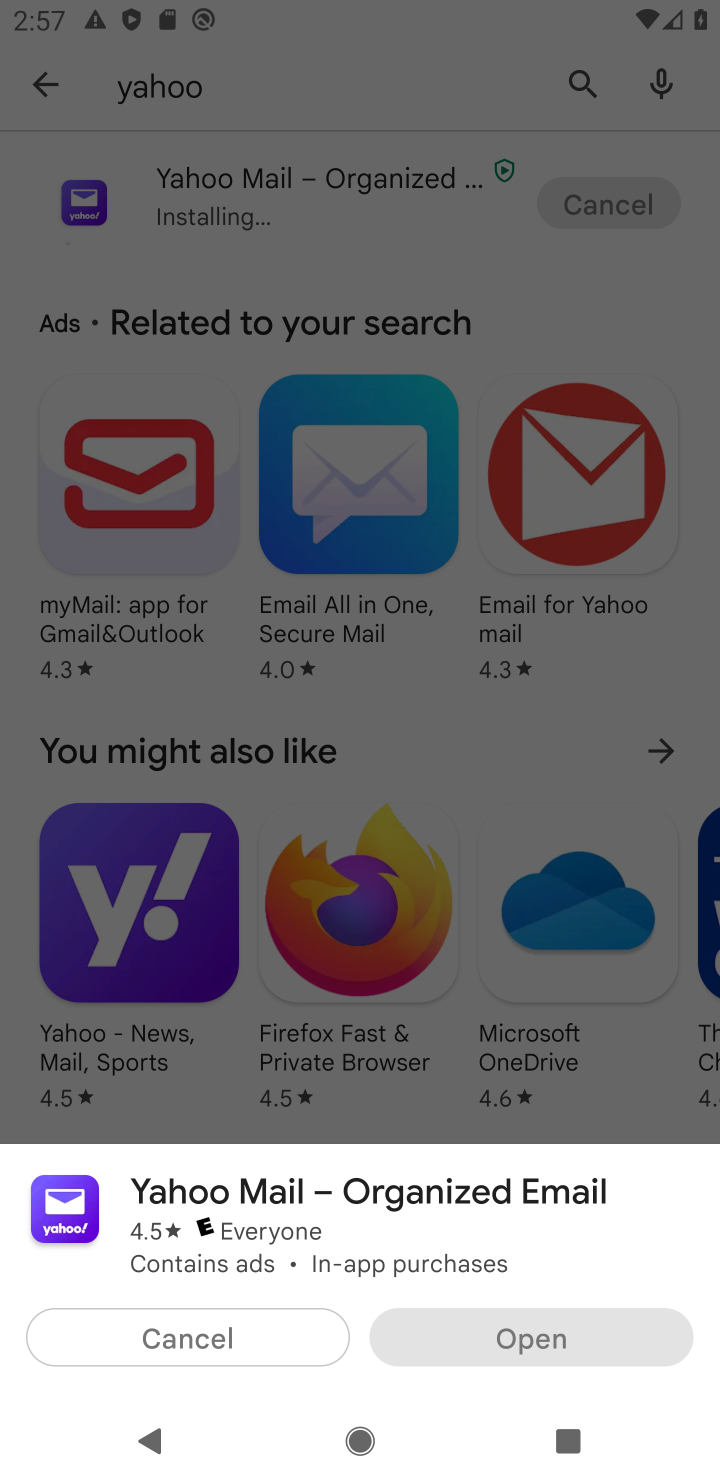
Step 29: click (545, 1325)
Your task to perform on an android device: open app "Yahoo Mail" Image 30: 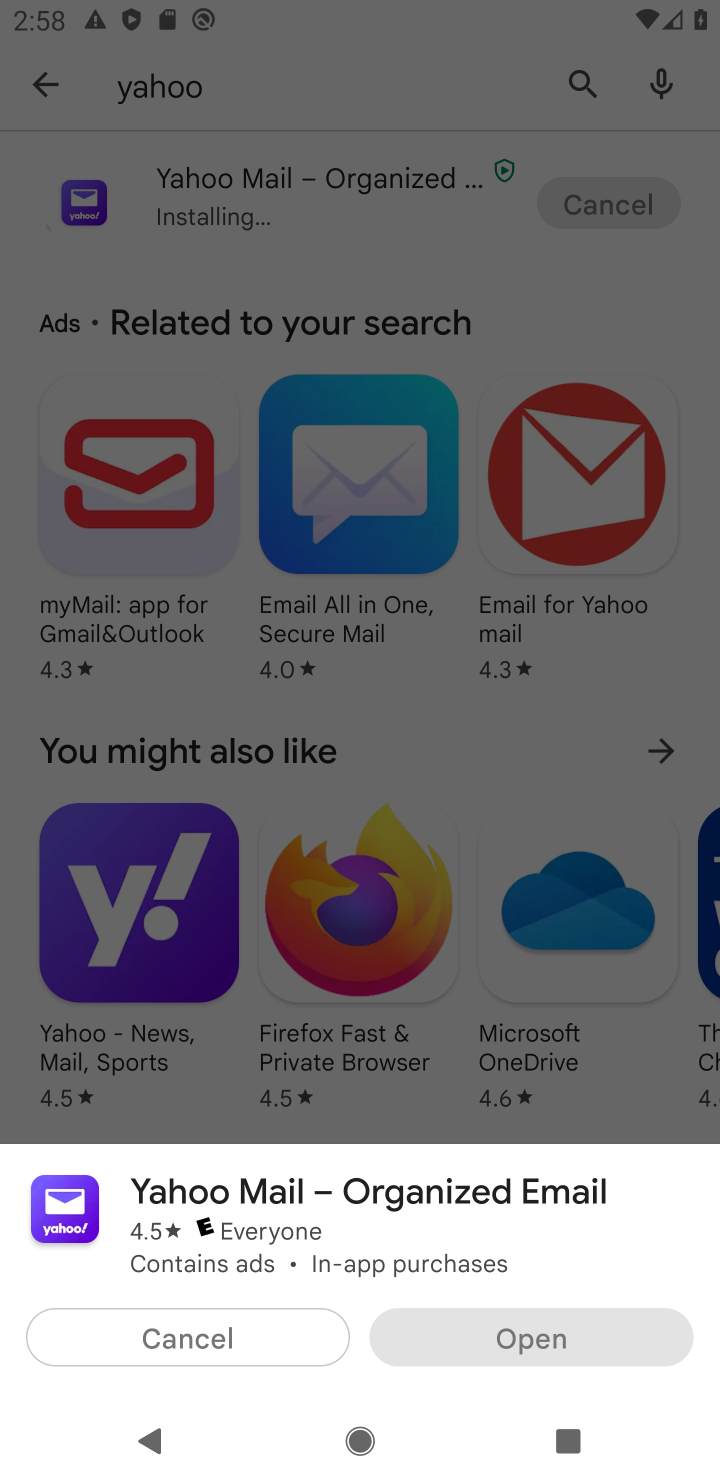
Step 30: click (249, 1330)
Your task to perform on an android device: open app "Yahoo Mail" Image 31: 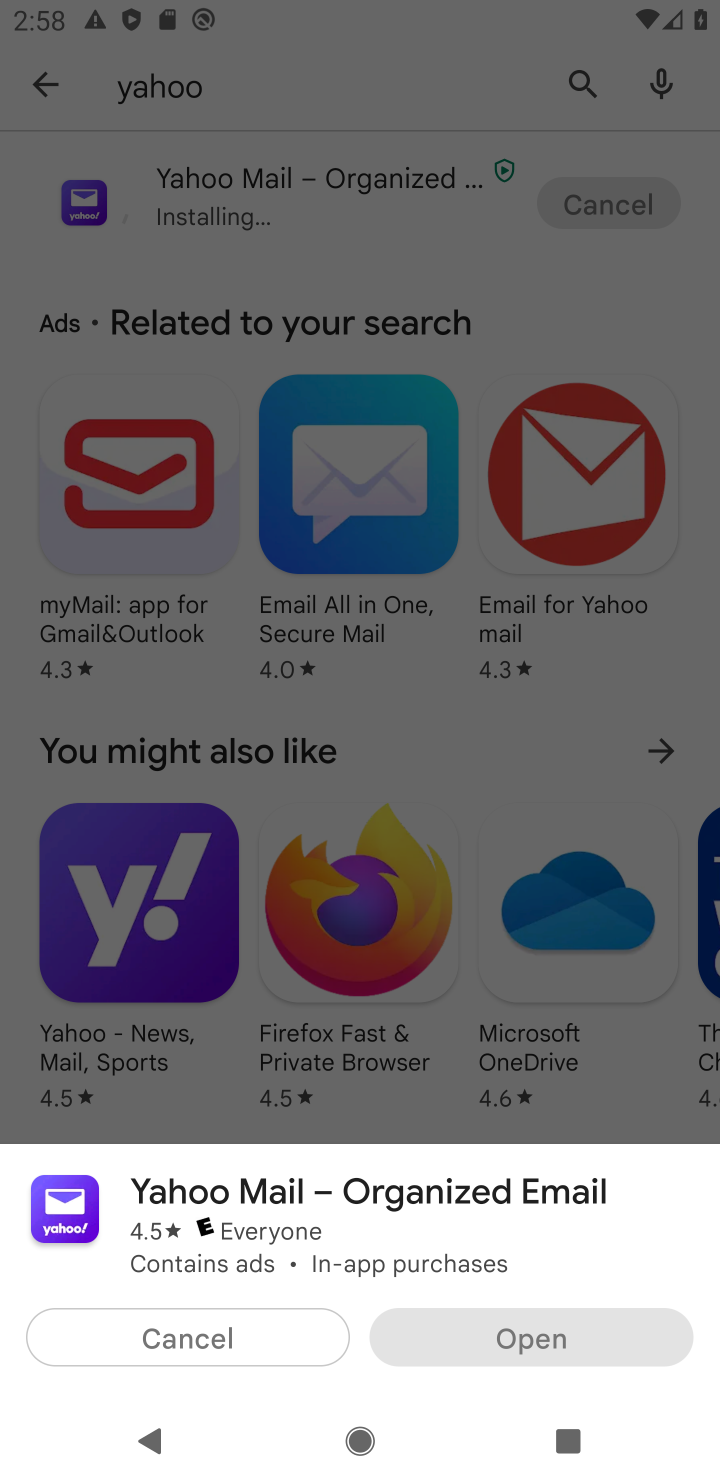
Step 31: click (242, 1351)
Your task to perform on an android device: open app "Yahoo Mail" Image 32: 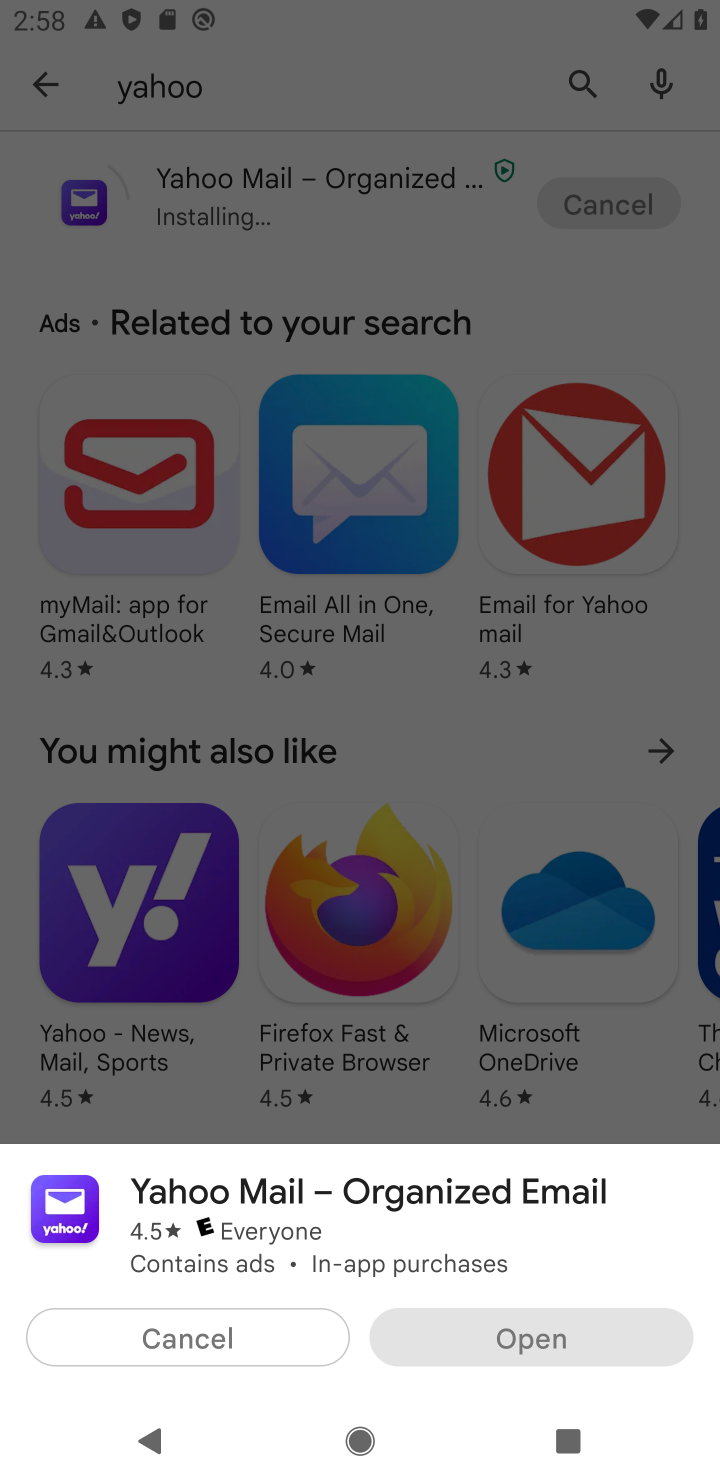
Step 32: click (149, 893)
Your task to perform on an android device: open app "Yahoo Mail" Image 33: 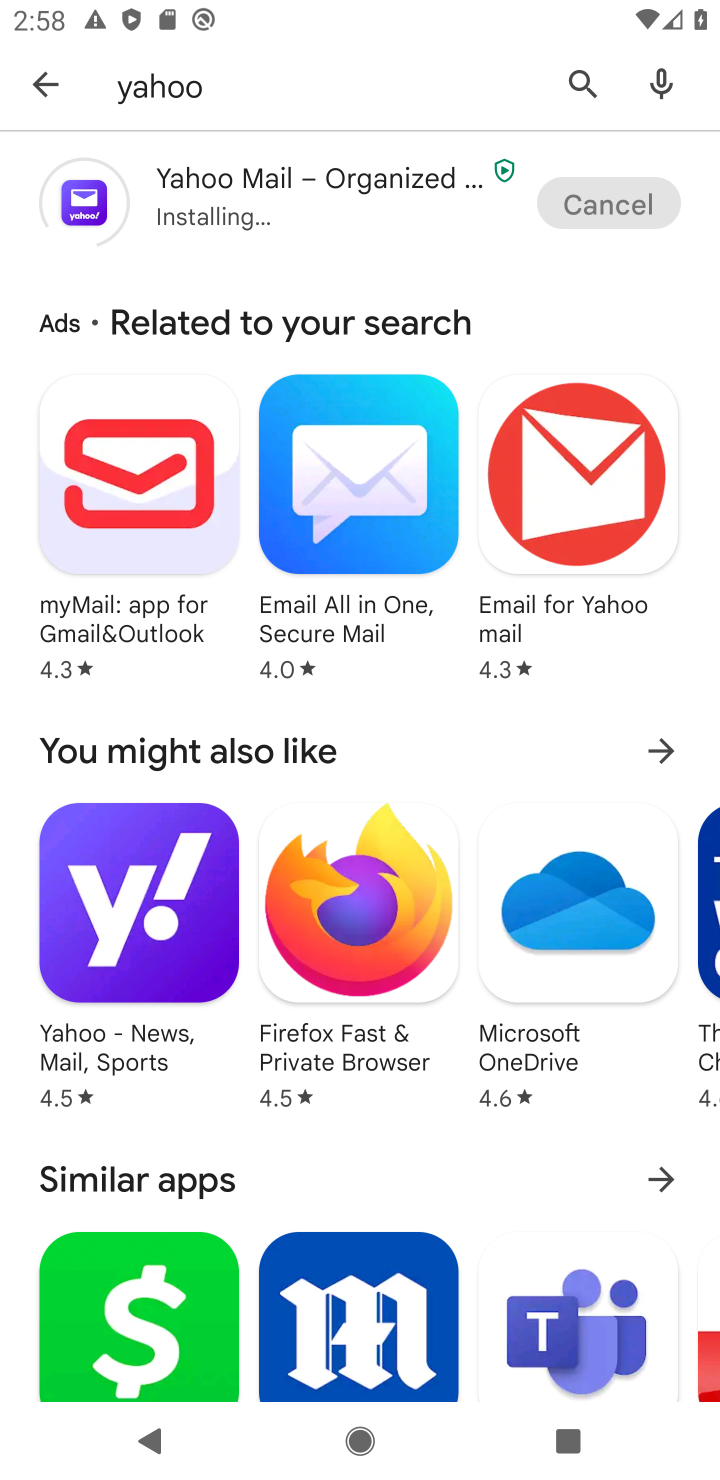
Step 33: task complete